Your task to perform on an android device: install app "Pluto TV - Live TV and Movies" Image 0: 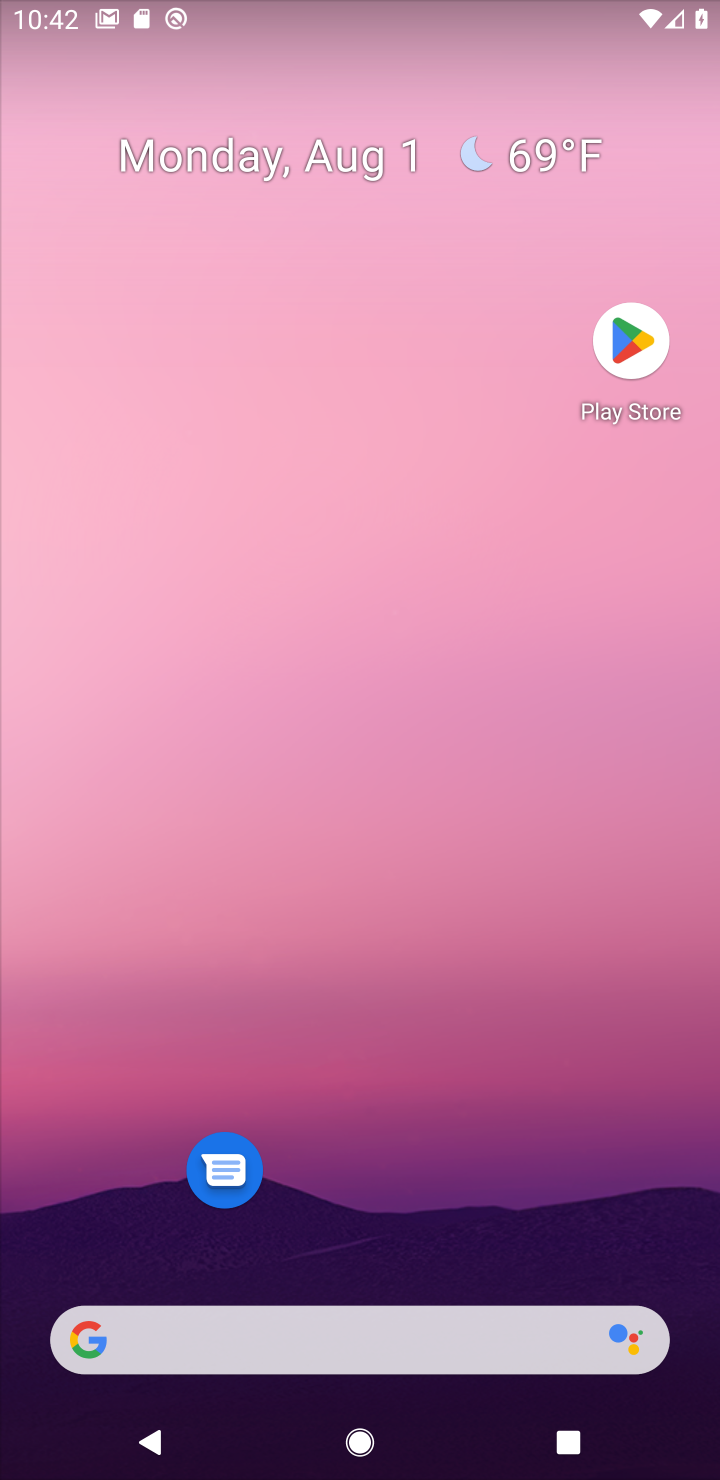
Step 0: drag from (475, 1345) to (337, 368)
Your task to perform on an android device: install app "Pluto TV - Live TV and Movies" Image 1: 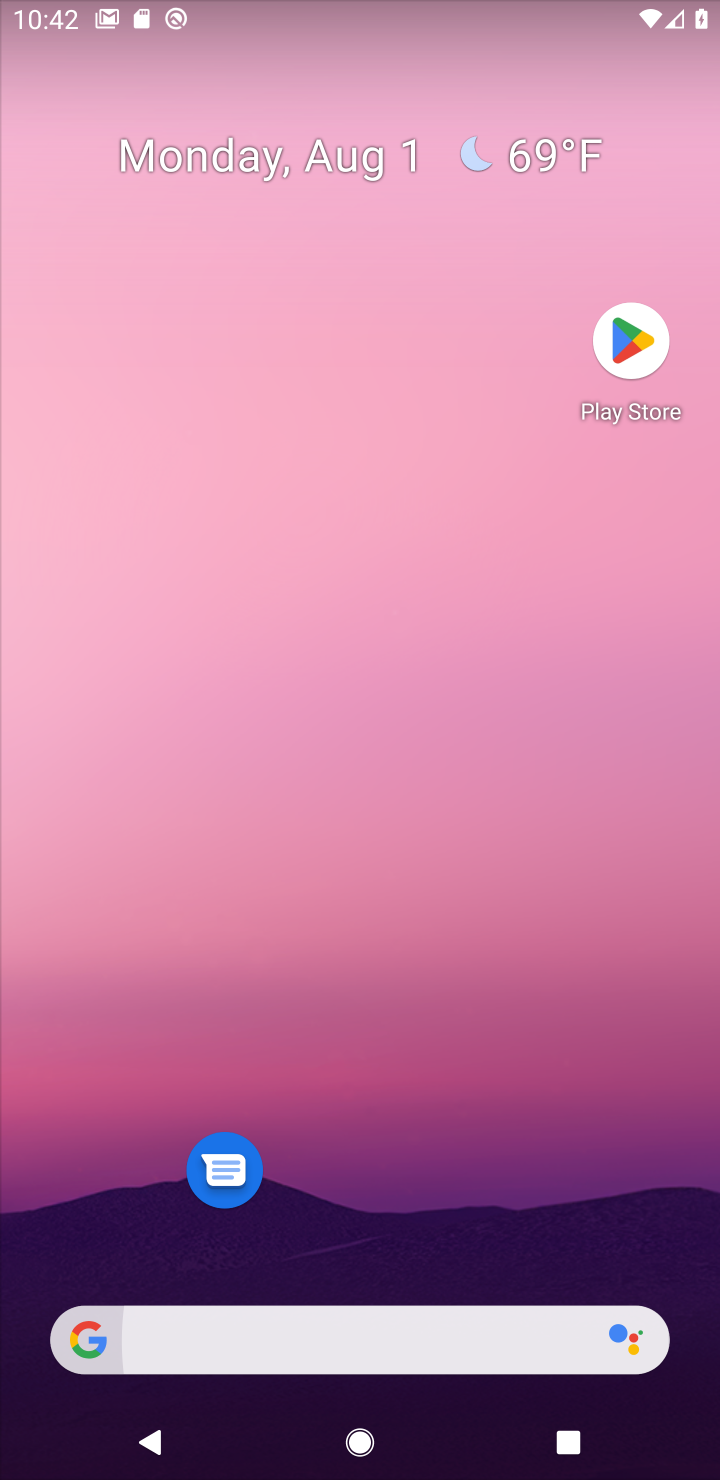
Step 1: drag from (381, 480) to (366, 412)
Your task to perform on an android device: install app "Pluto TV - Live TV and Movies" Image 2: 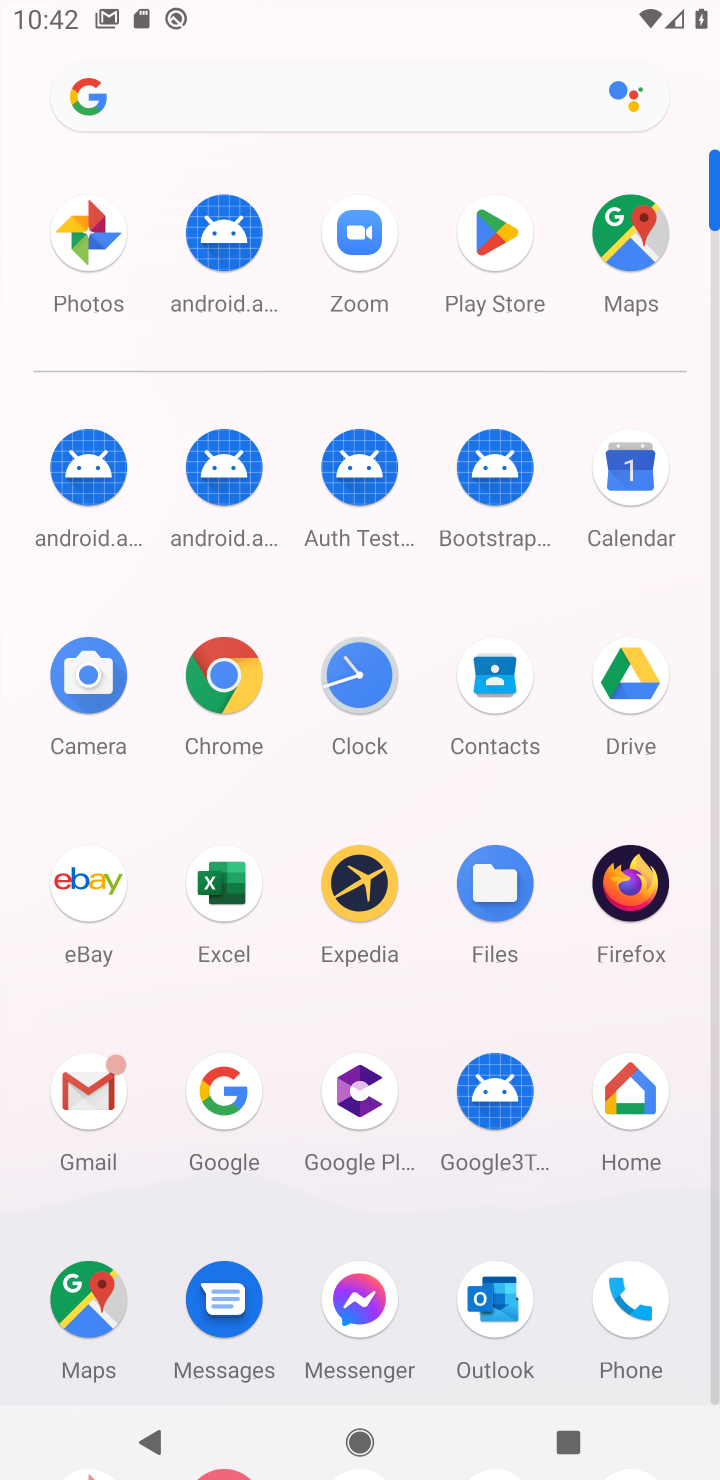
Step 2: click (501, 226)
Your task to perform on an android device: install app "Pluto TV - Live TV and Movies" Image 3: 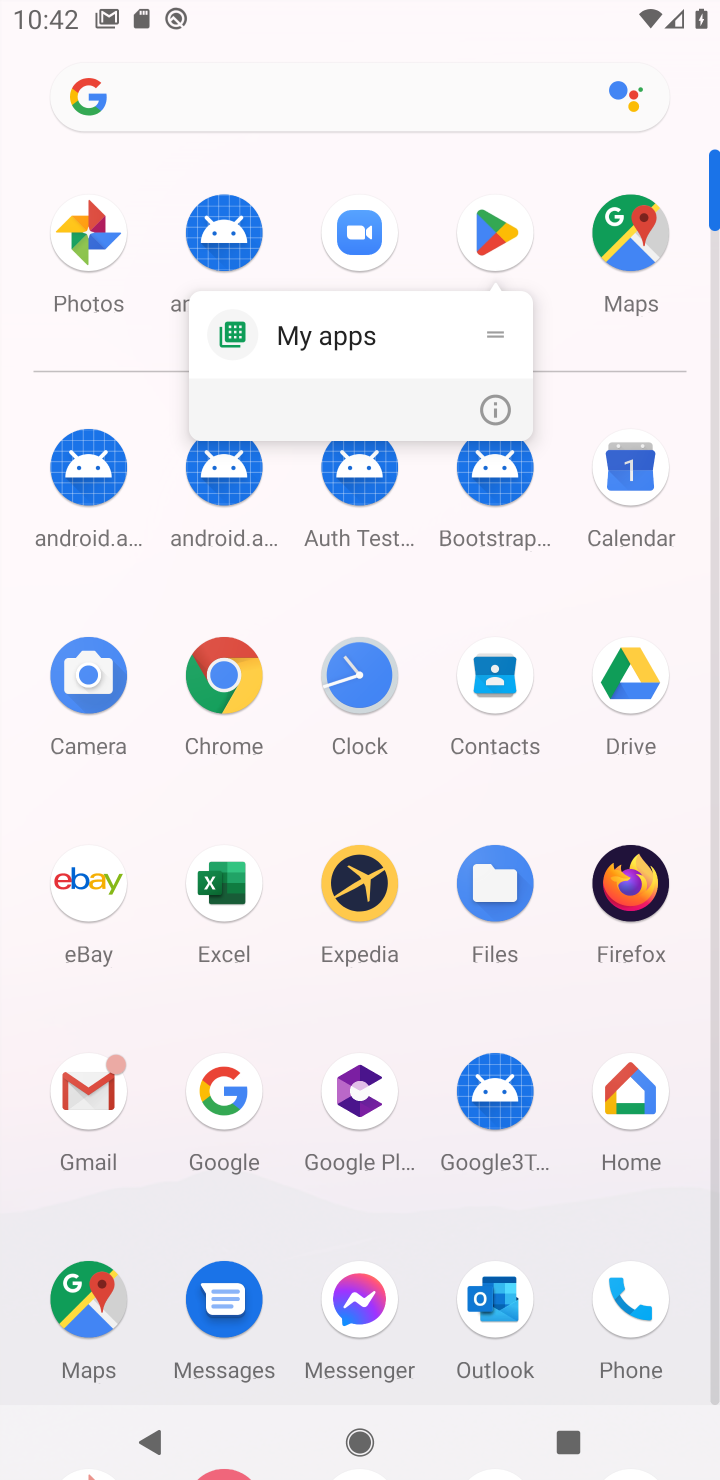
Step 3: click (501, 226)
Your task to perform on an android device: install app "Pluto TV - Live TV and Movies" Image 4: 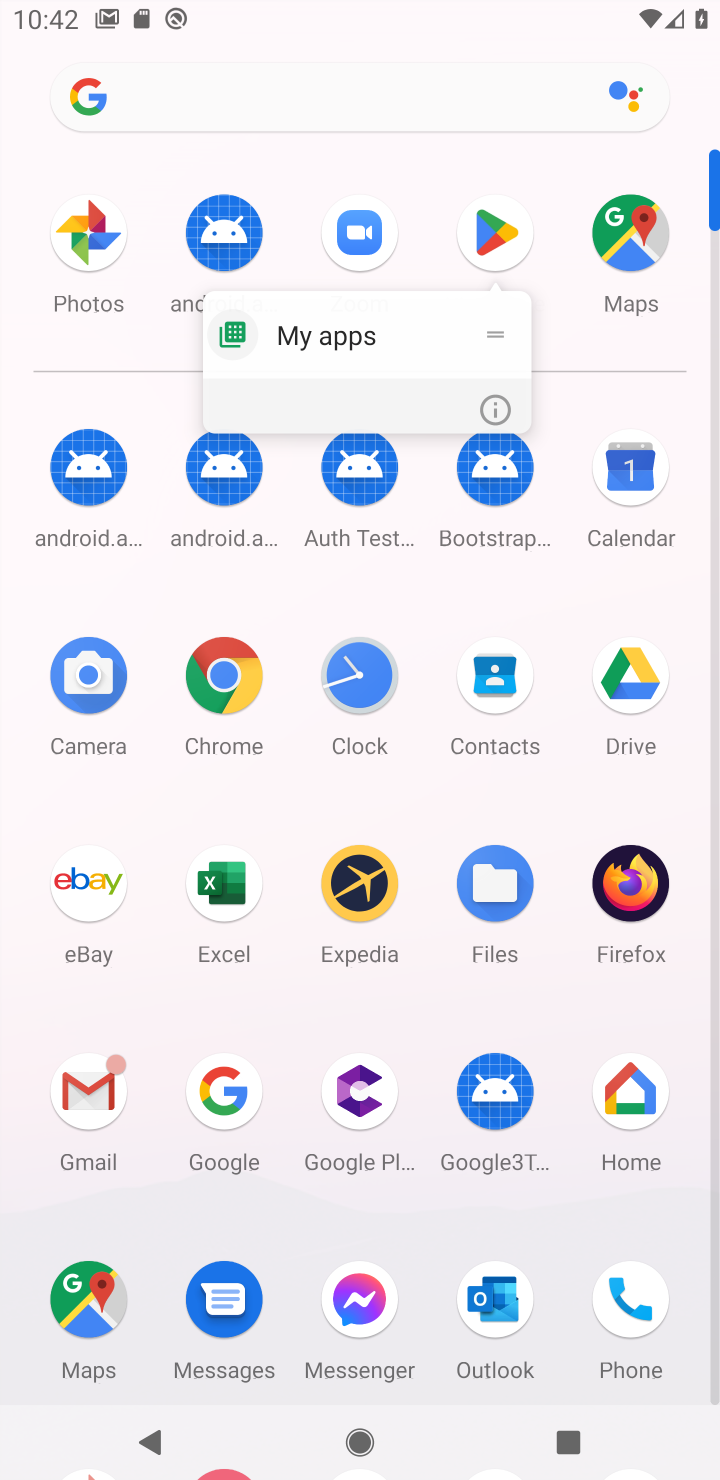
Step 4: click (503, 226)
Your task to perform on an android device: install app "Pluto TV - Live TV and Movies" Image 5: 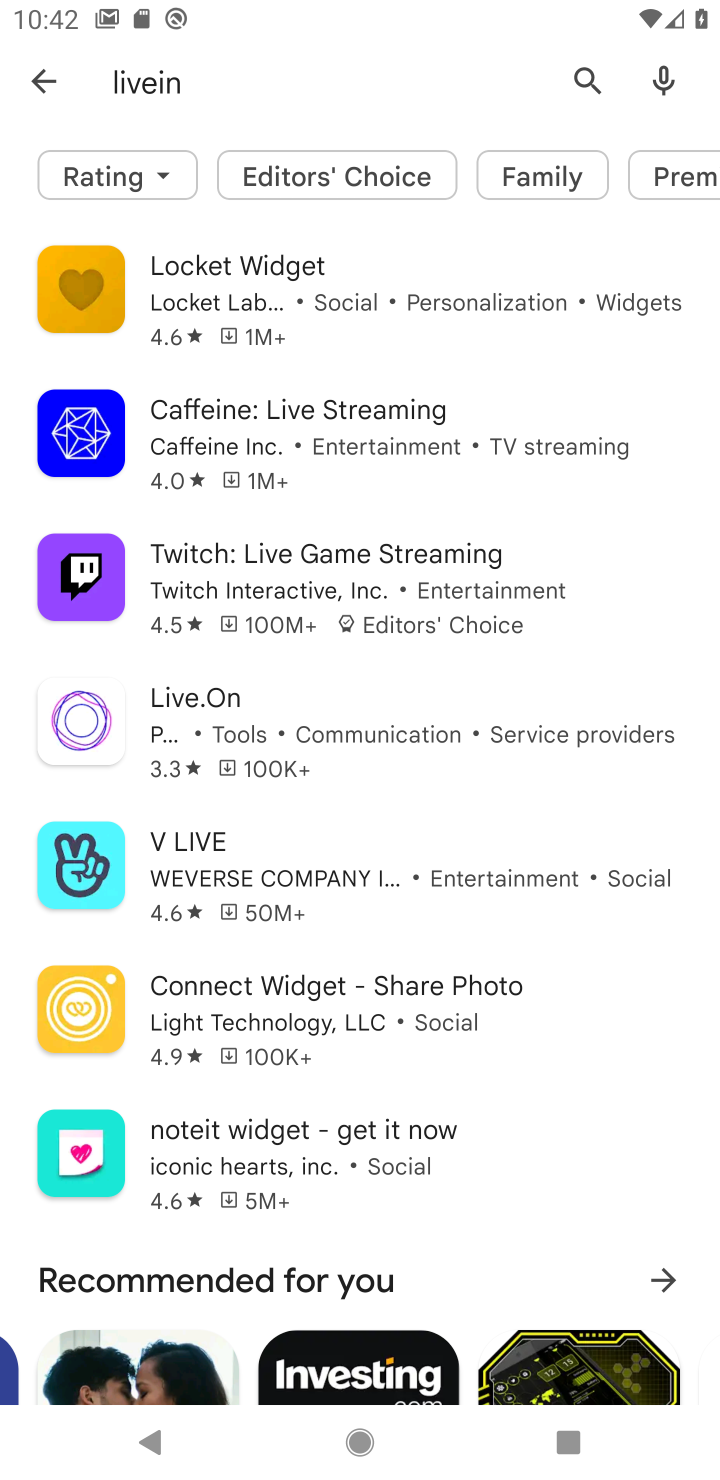
Step 5: click (52, 77)
Your task to perform on an android device: install app "Pluto TV - Live TV and Movies" Image 6: 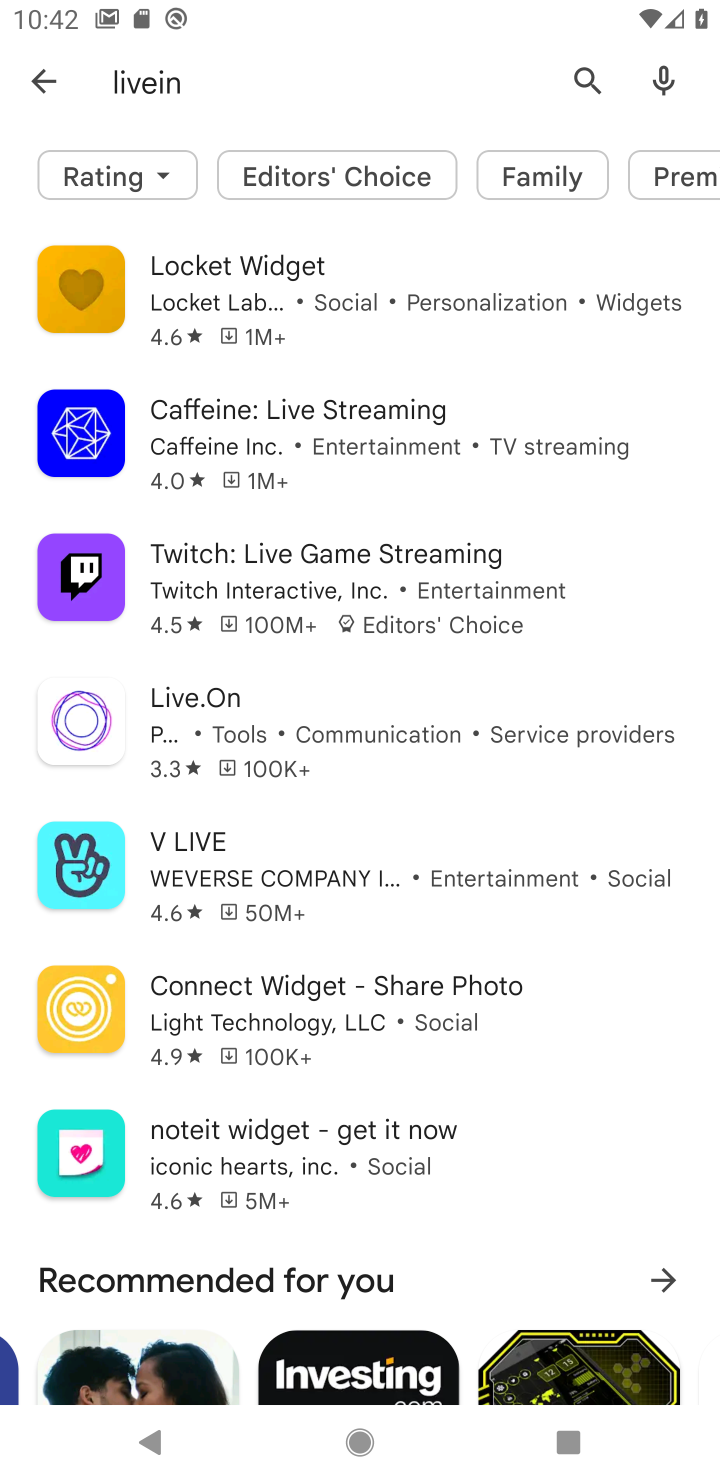
Step 6: click (56, 79)
Your task to perform on an android device: install app "Pluto TV - Live TV and Movies" Image 7: 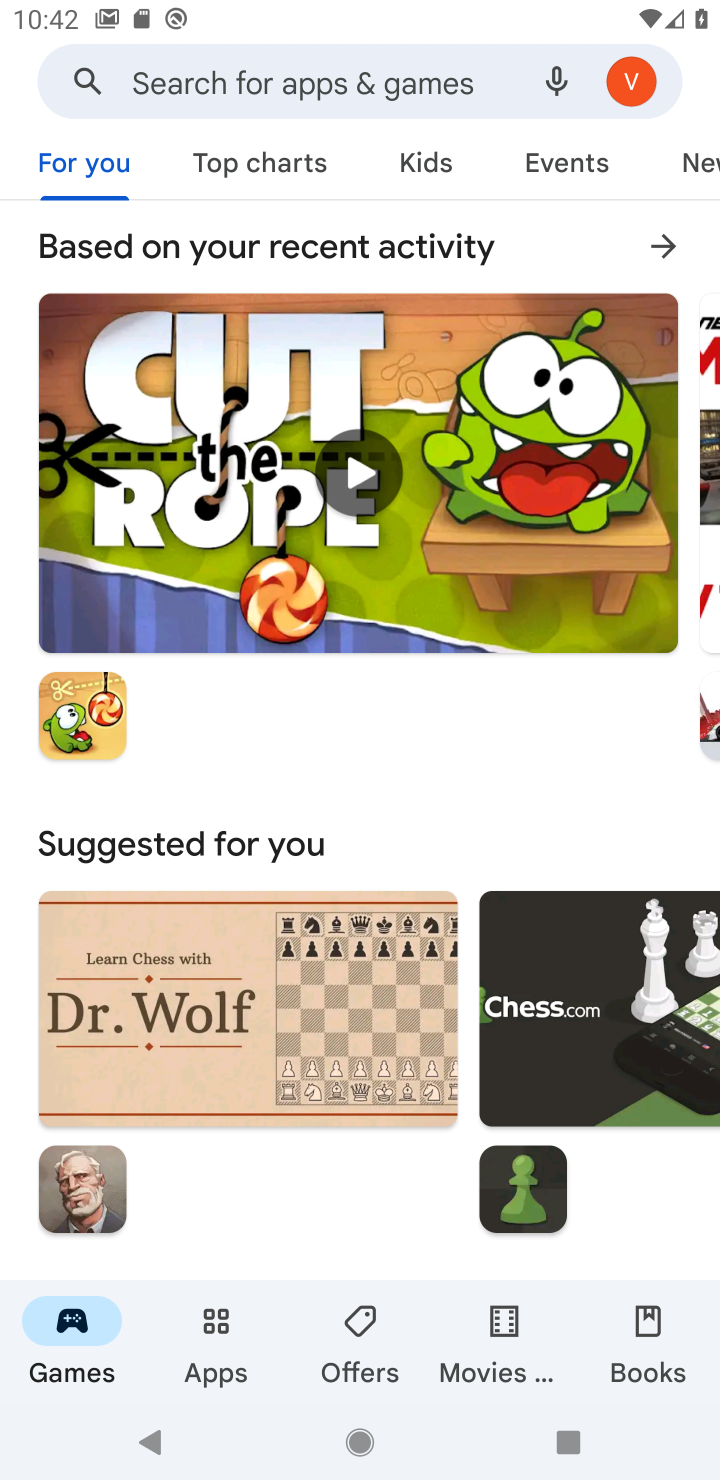
Step 7: click (152, 58)
Your task to perform on an android device: install app "Pluto TV - Live TV and Movies" Image 8: 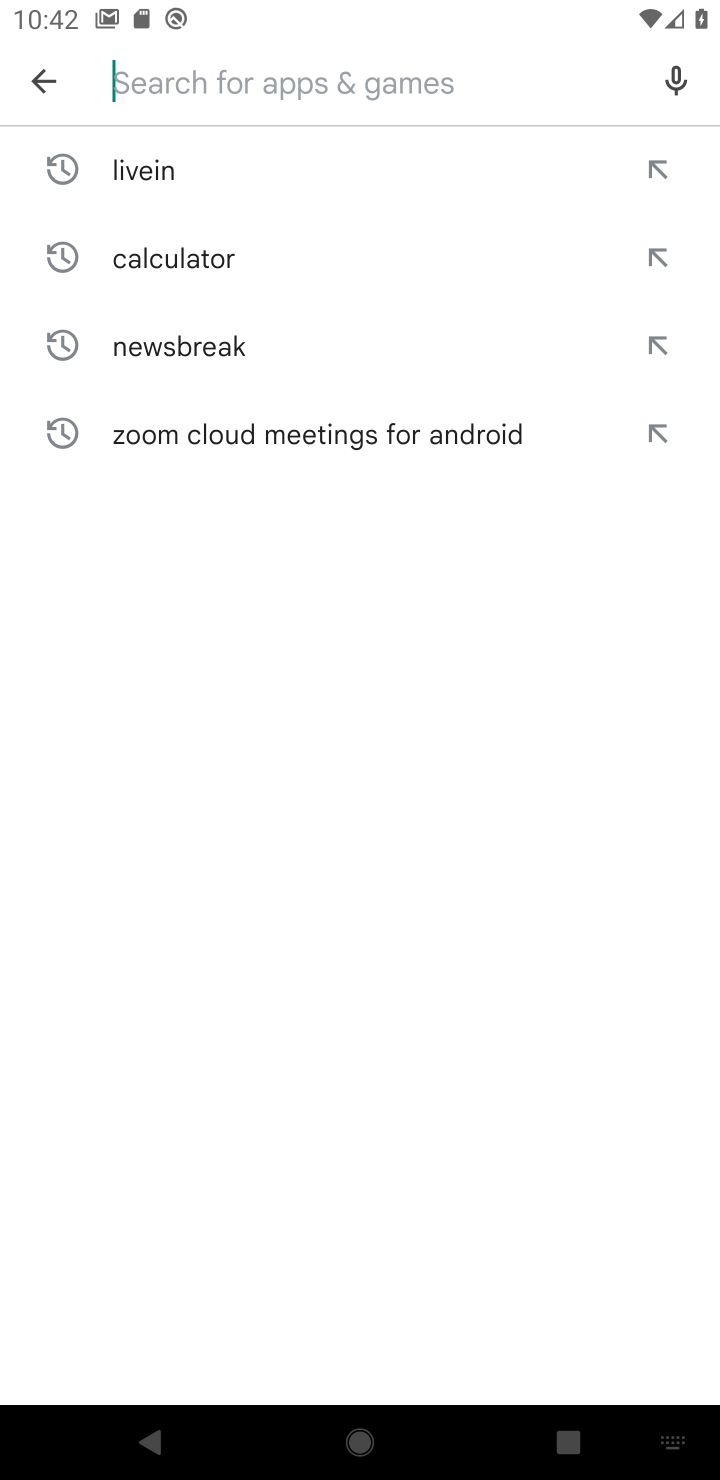
Step 8: type "pluto tv"
Your task to perform on an android device: install app "Pluto TV - Live TV and Movies" Image 9: 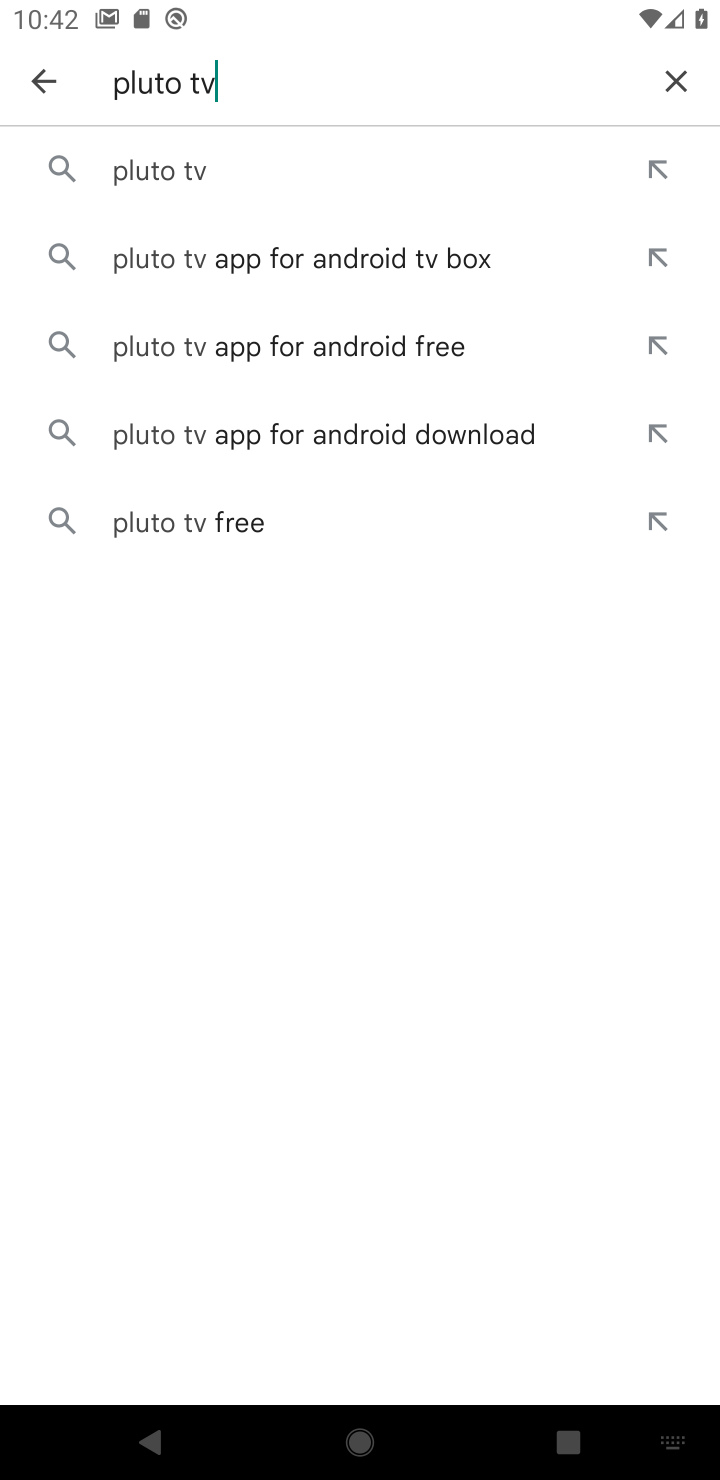
Step 9: click (158, 167)
Your task to perform on an android device: install app "Pluto TV - Live TV and Movies" Image 10: 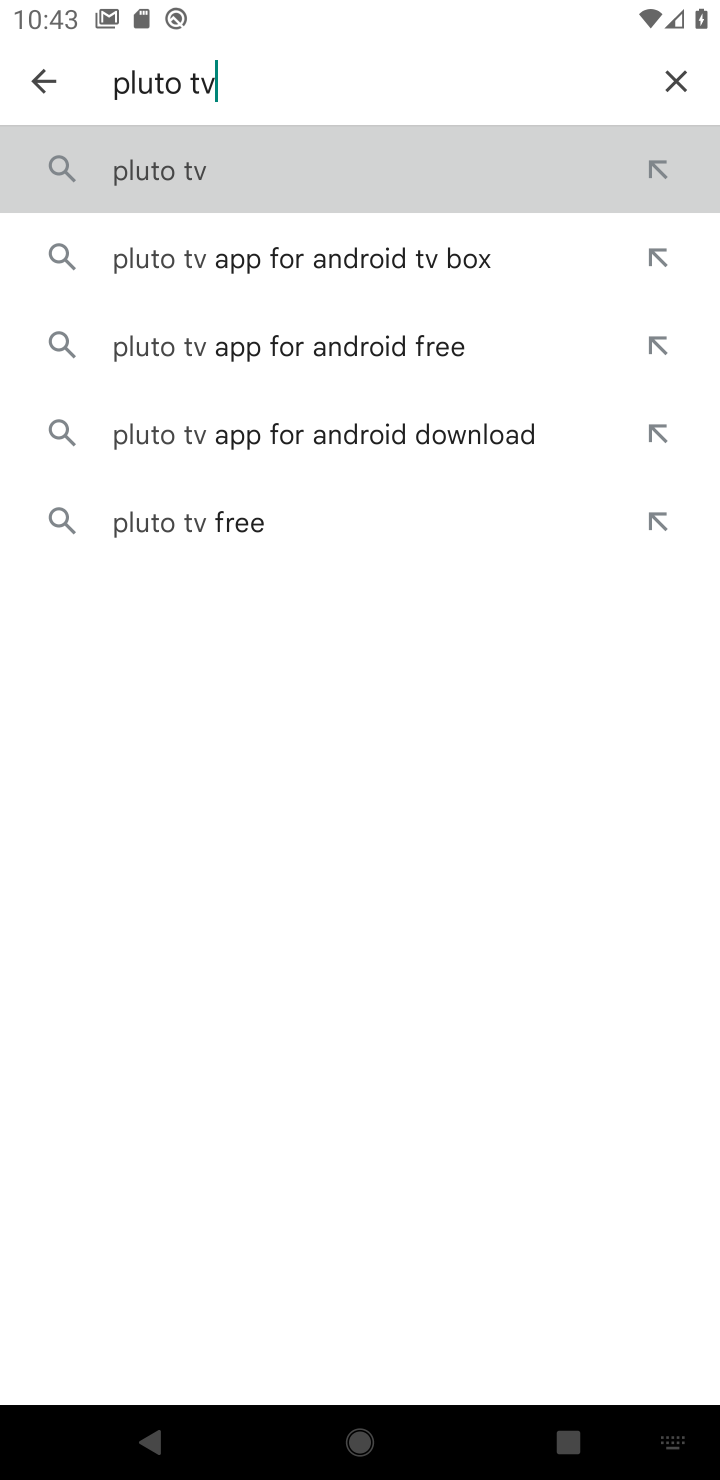
Step 10: click (162, 169)
Your task to perform on an android device: install app "Pluto TV - Live TV and Movies" Image 11: 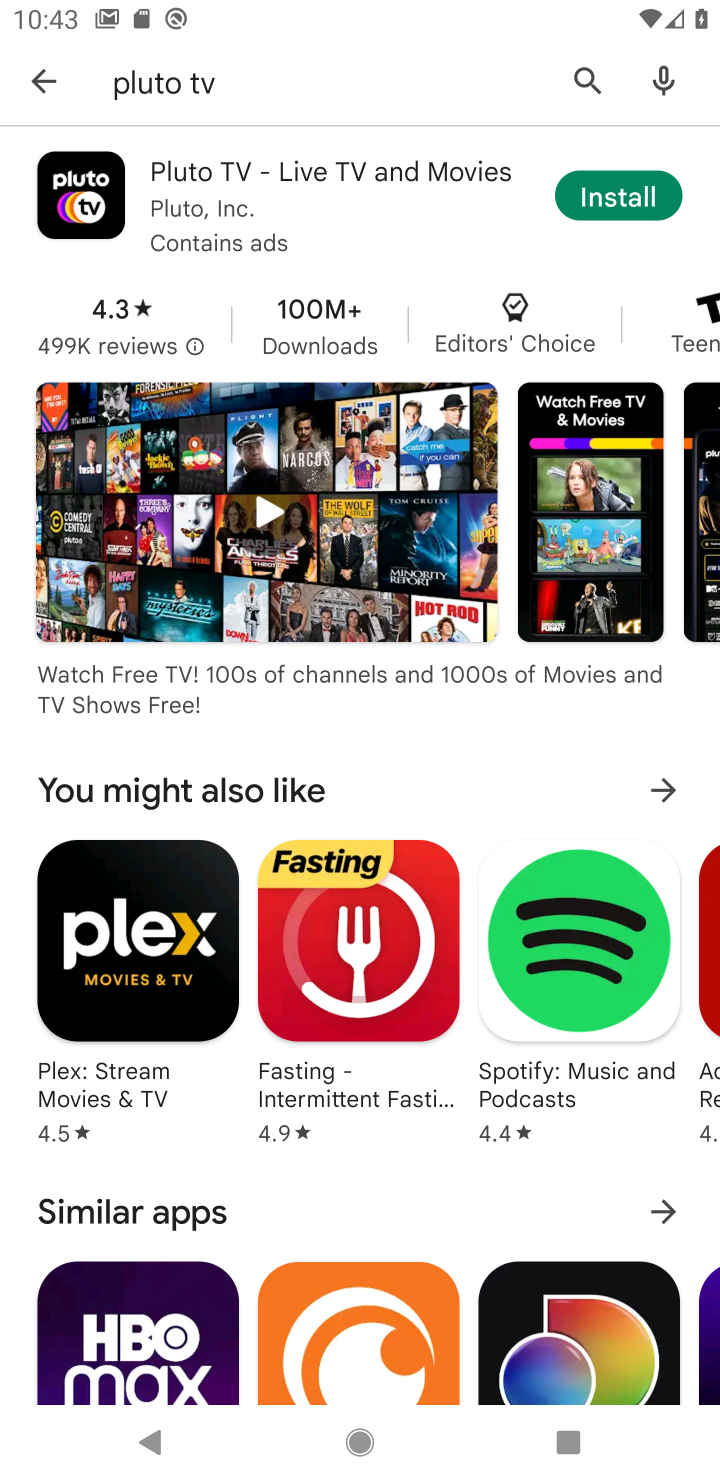
Step 11: click (637, 200)
Your task to perform on an android device: install app "Pluto TV - Live TV and Movies" Image 12: 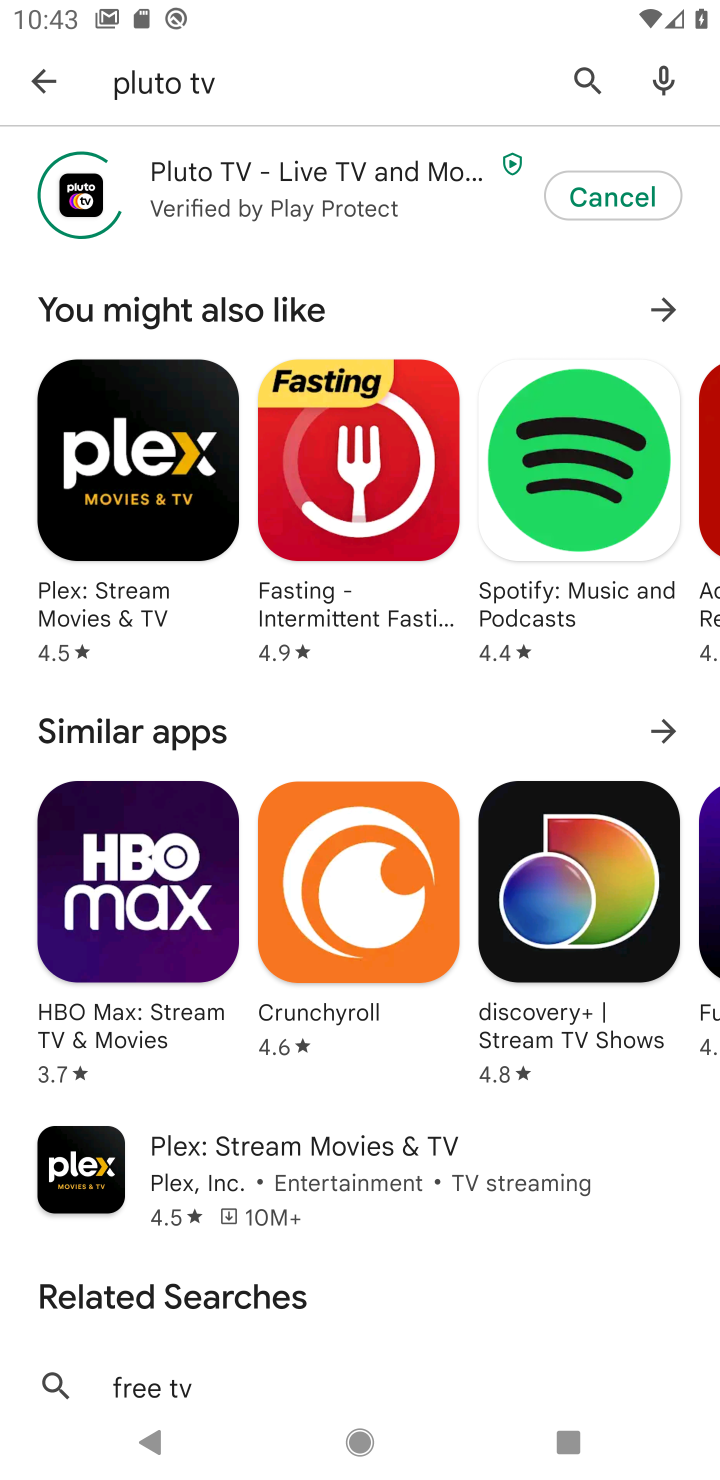
Step 12: click (641, 204)
Your task to perform on an android device: install app "Pluto TV - Live TV and Movies" Image 13: 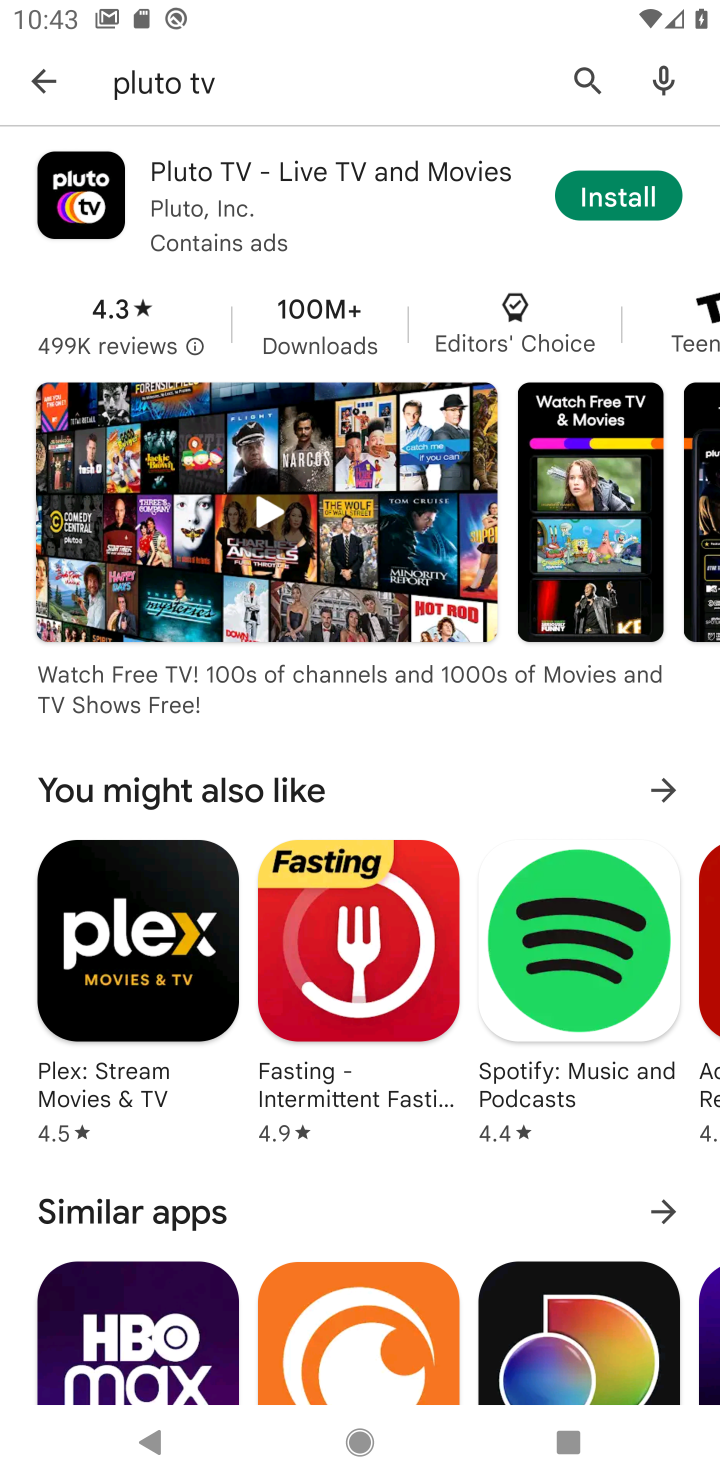
Step 13: click (606, 180)
Your task to perform on an android device: install app "Pluto TV - Live TV and Movies" Image 14: 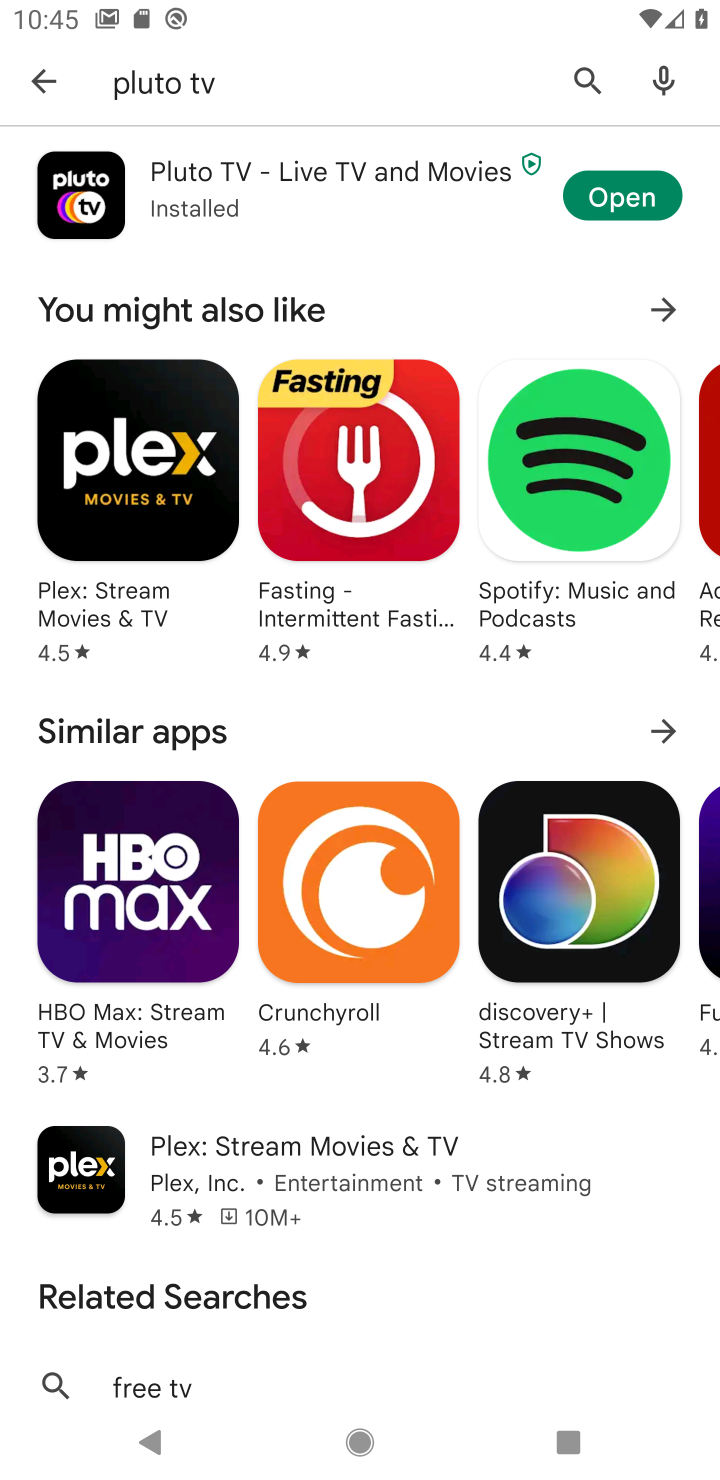
Step 14: click (658, 224)
Your task to perform on an android device: install app "Pluto TV - Live TV and Movies" Image 15: 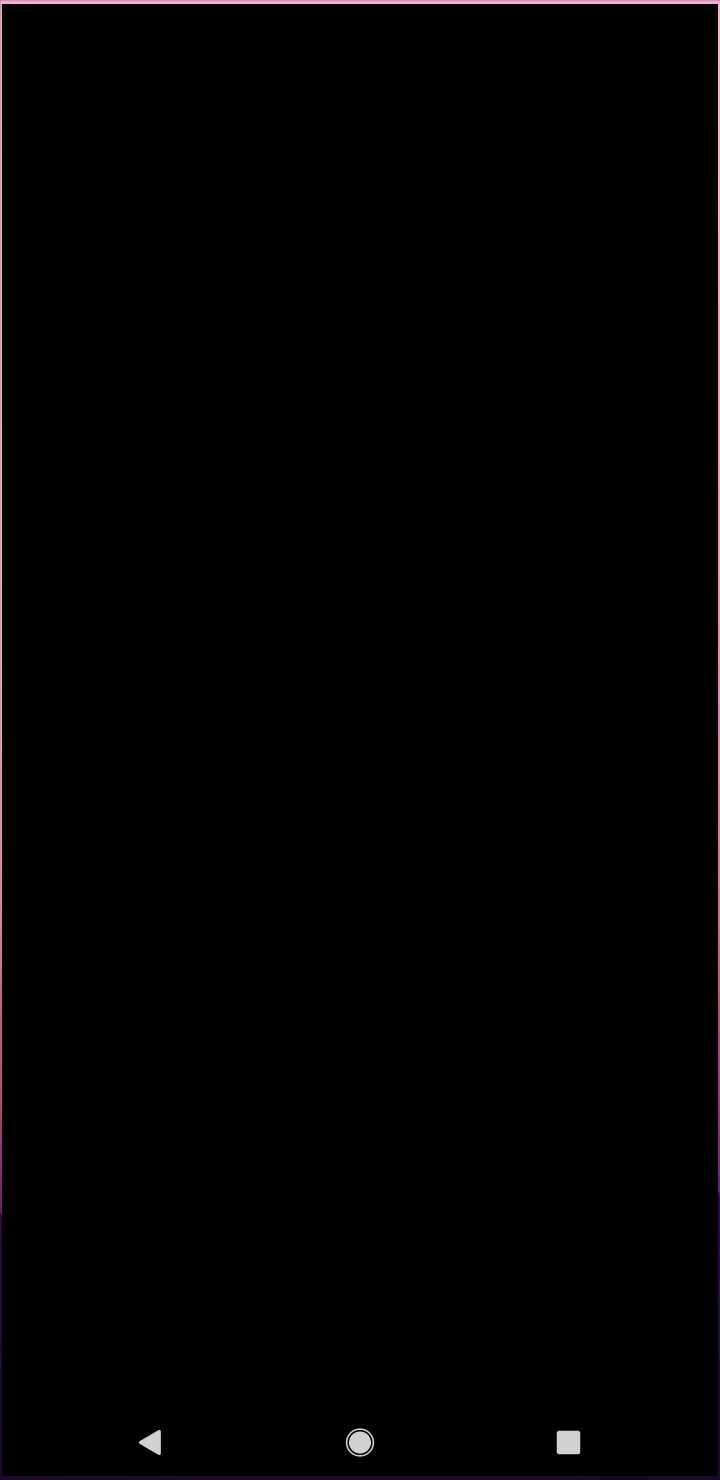
Step 15: click (647, 209)
Your task to perform on an android device: install app "Pluto TV - Live TV and Movies" Image 16: 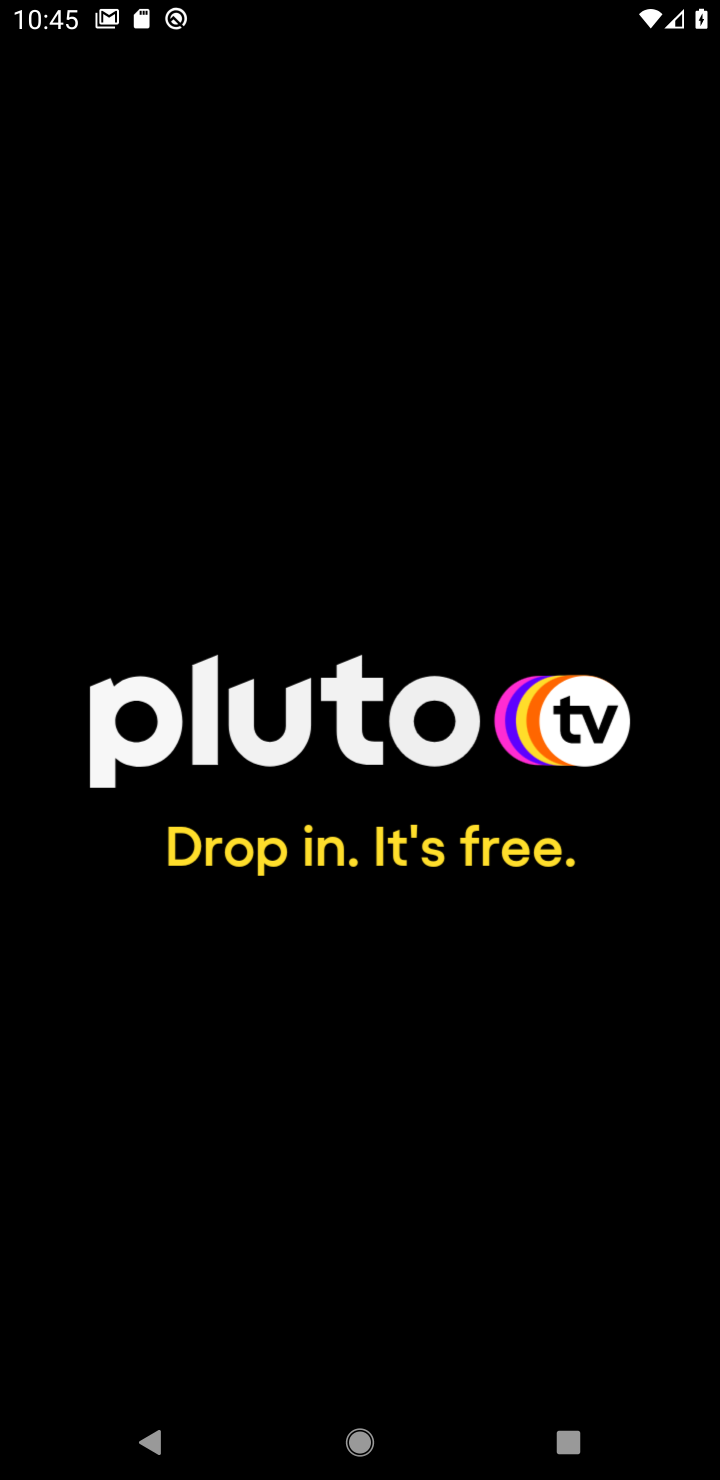
Step 16: press back button
Your task to perform on an android device: install app "Pluto TV - Live TV and Movies" Image 17: 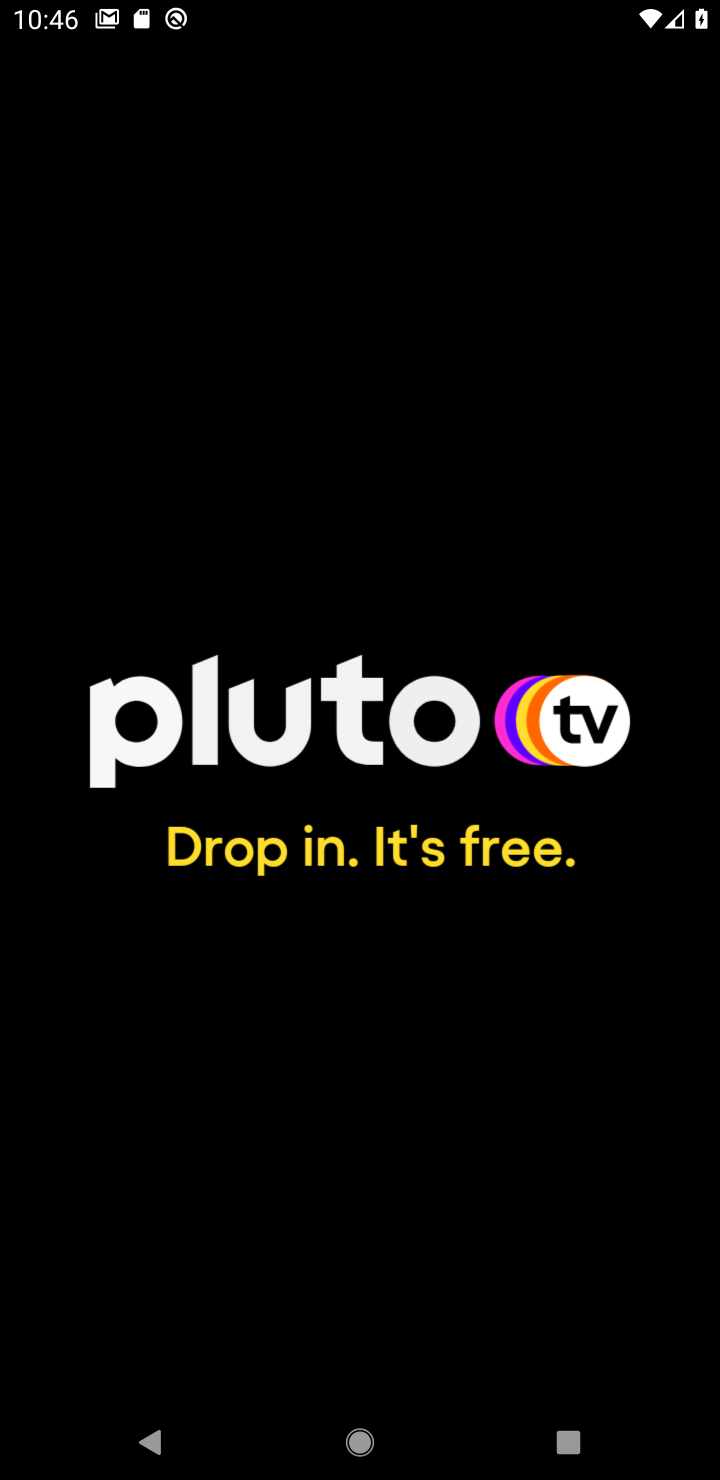
Step 17: press back button
Your task to perform on an android device: install app "Pluto TV - Live TV and Movies" Image 18: 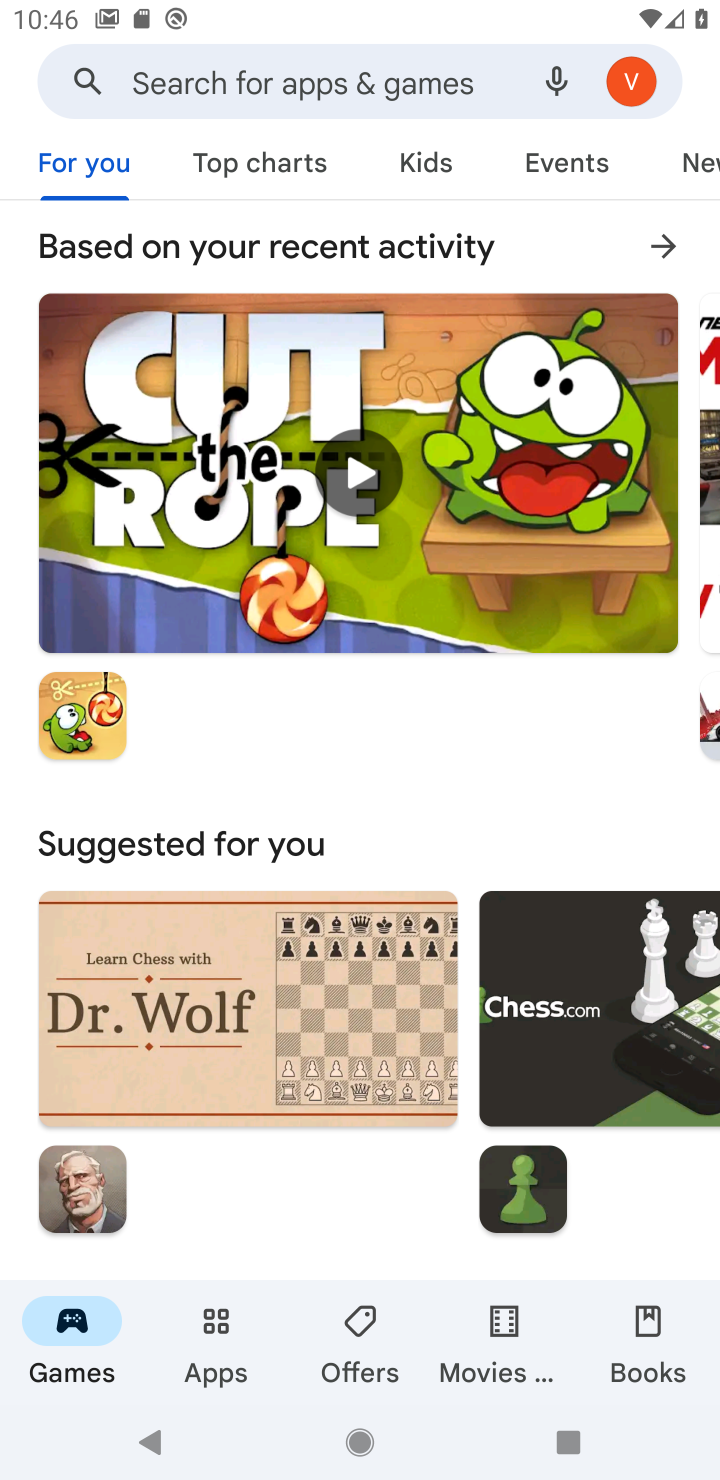
Step 18: press home button
Your task to perform on an android device: install app "Pluto TV - Live TV and Movies" Image 19: 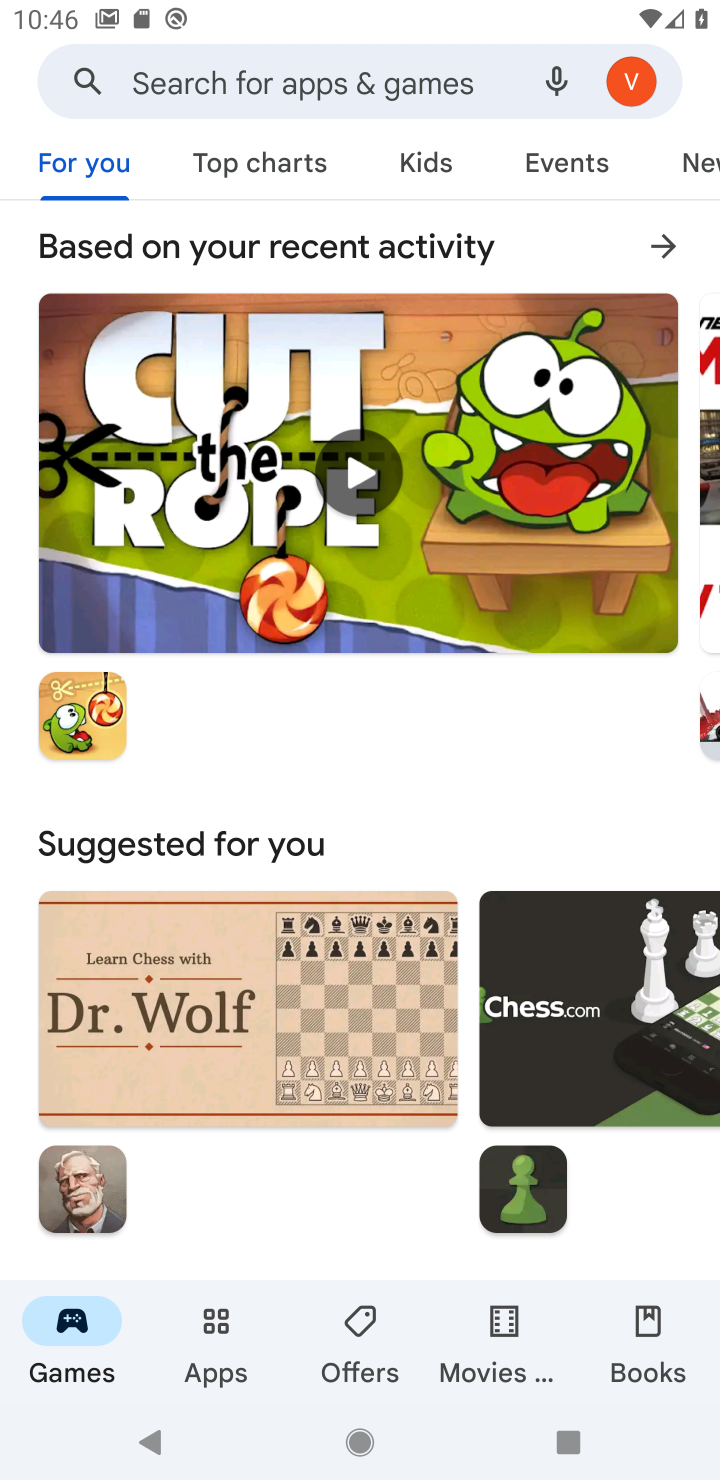
Step 19: click (213, 90)
Your task to perform on an android device: install app "Pluto TV - Live TV and Movies" Image 20: 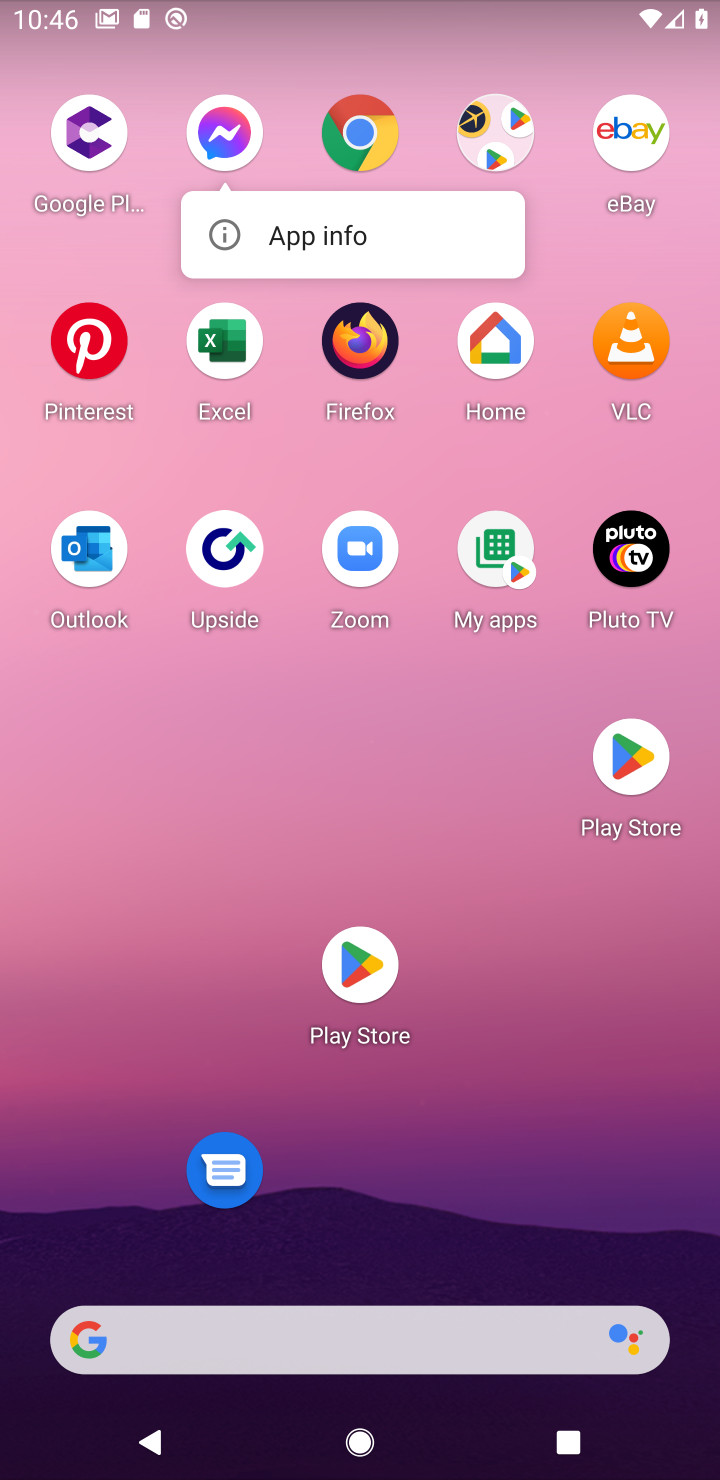
Step 20: click (374, 943)
Your task to perform on an android device: install app "Pluto TV - Live TV and Movies" Image 21: 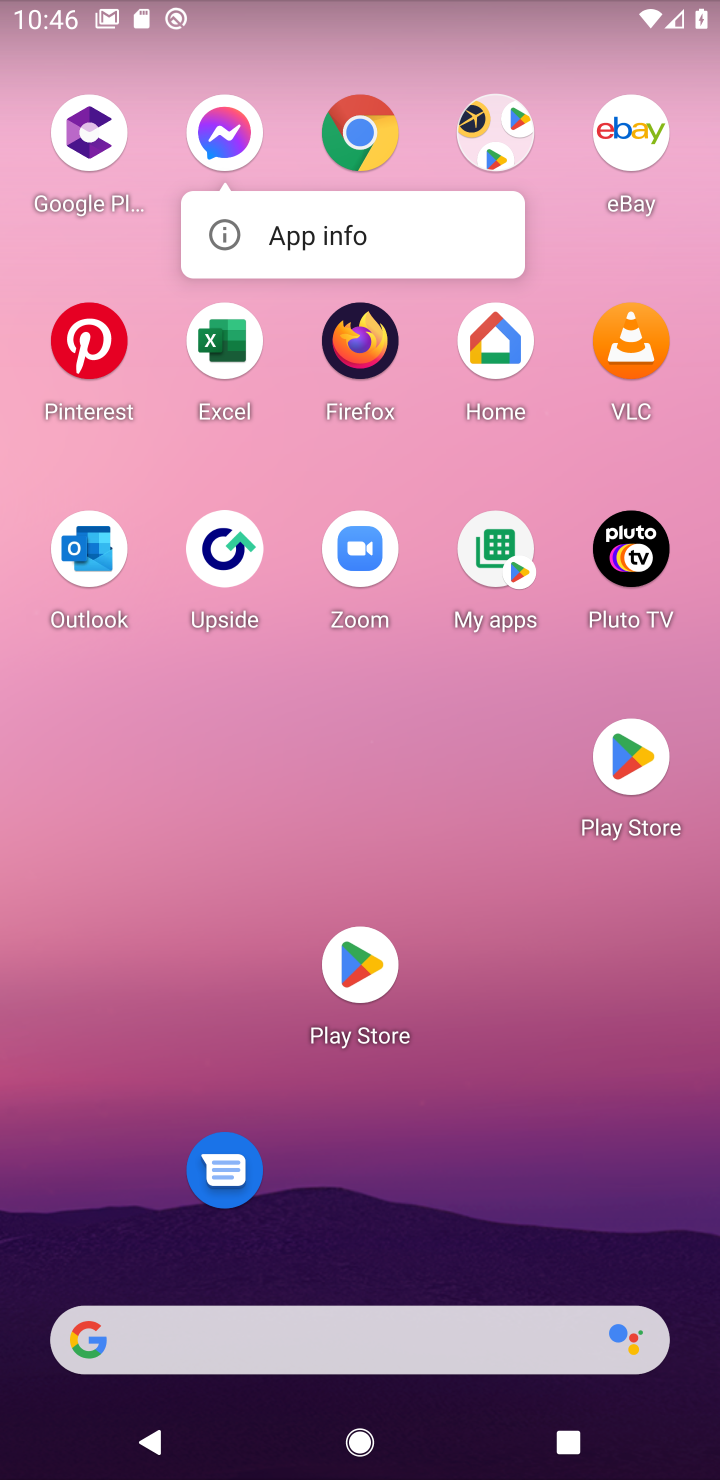
Step 21: click (396, 936)
Your task to perform on an android device: install app "Pluto TV - Live TV and Movies" Image 22: 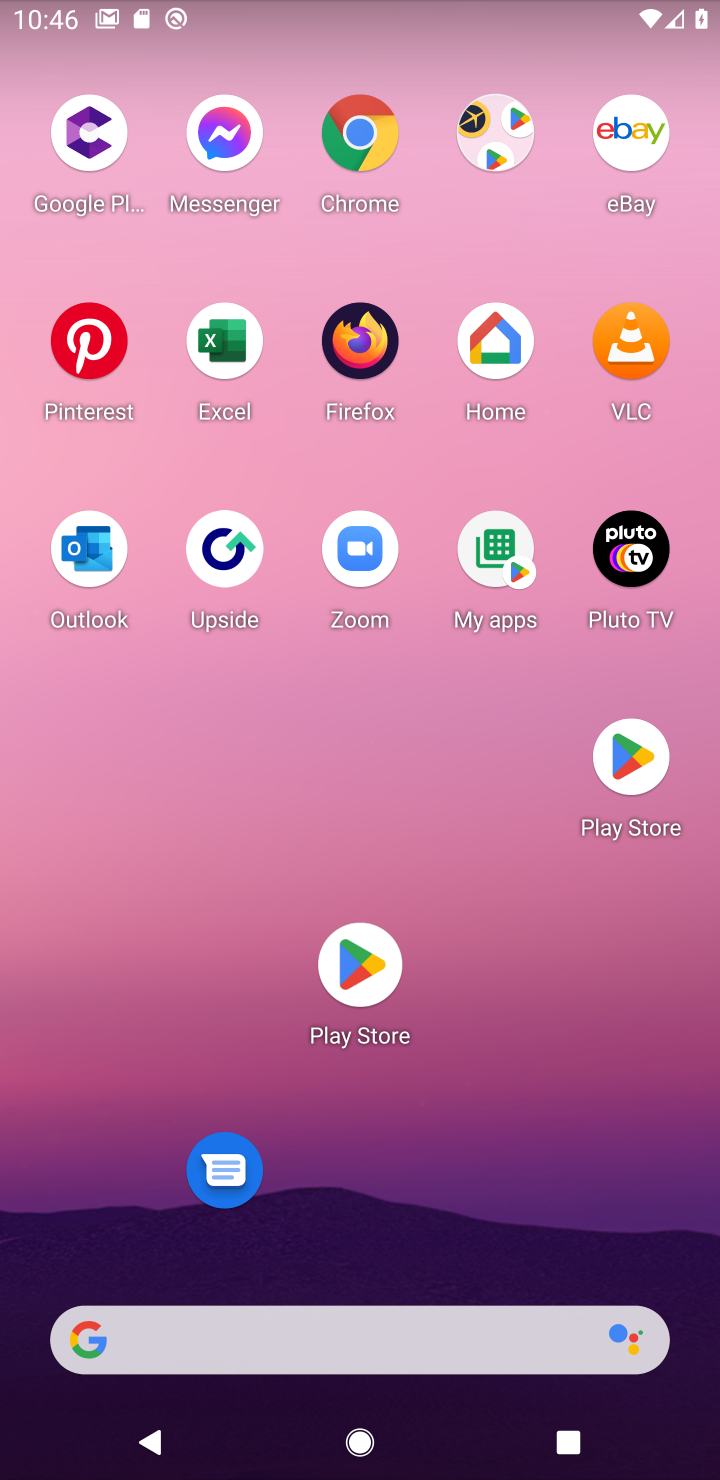
Step 22: click (371, 953)
Your task to perform on an android device: install app "Pluto TV - Live TV and Movies" Image 23: 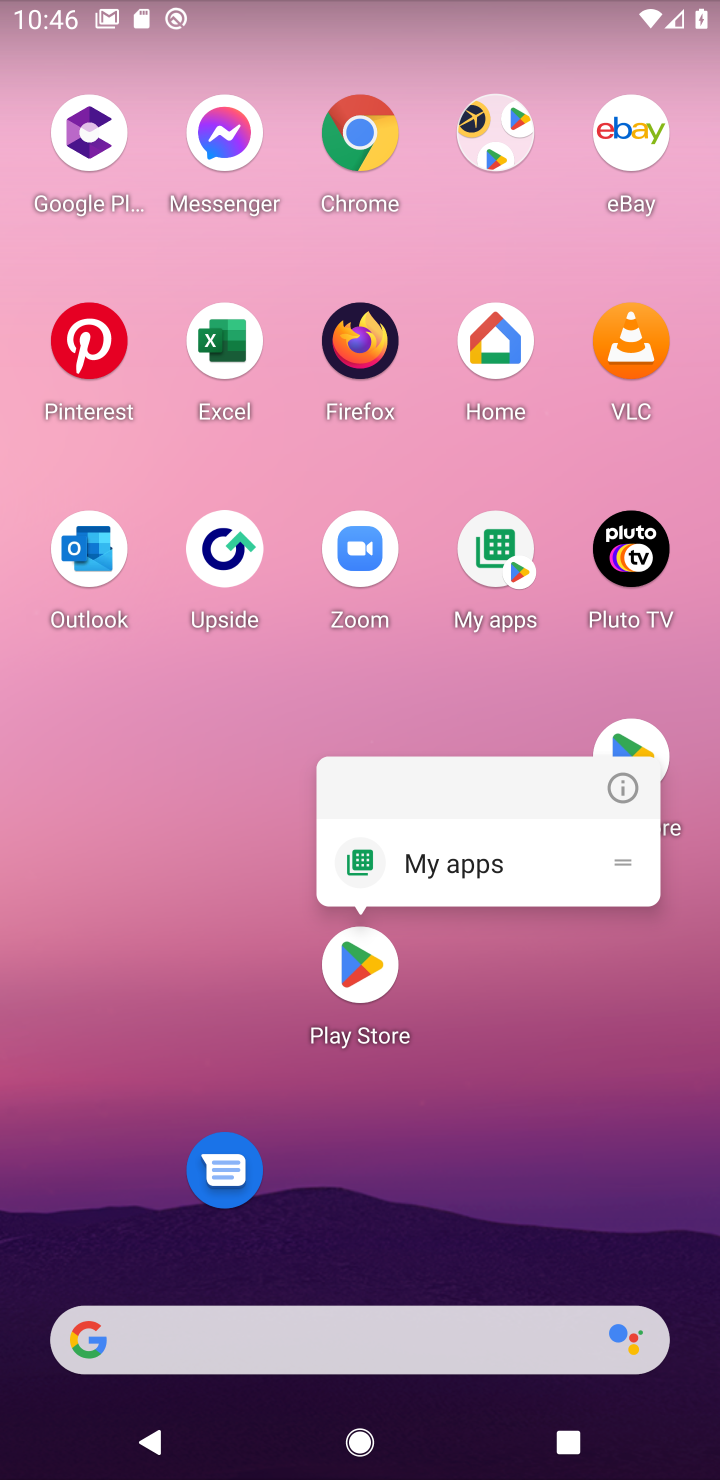
Step 23: click (461, 835)
Your task to perform on an android device: install app "Pluto TV - Live TV and Movies" Image 24: 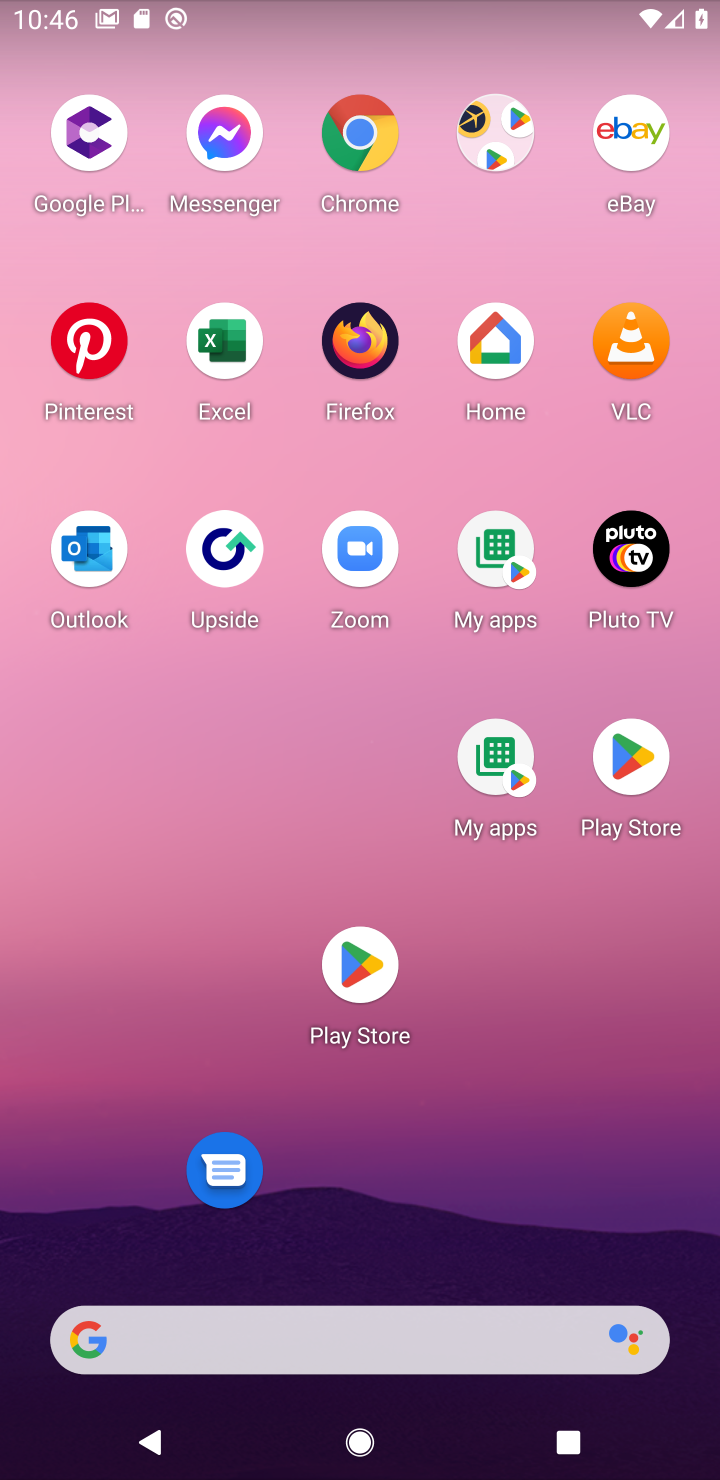
Step 24: click (368, 959)
Your task to perform on an android device: install app "Pluto TV - Live TV and Movies" Image 25: 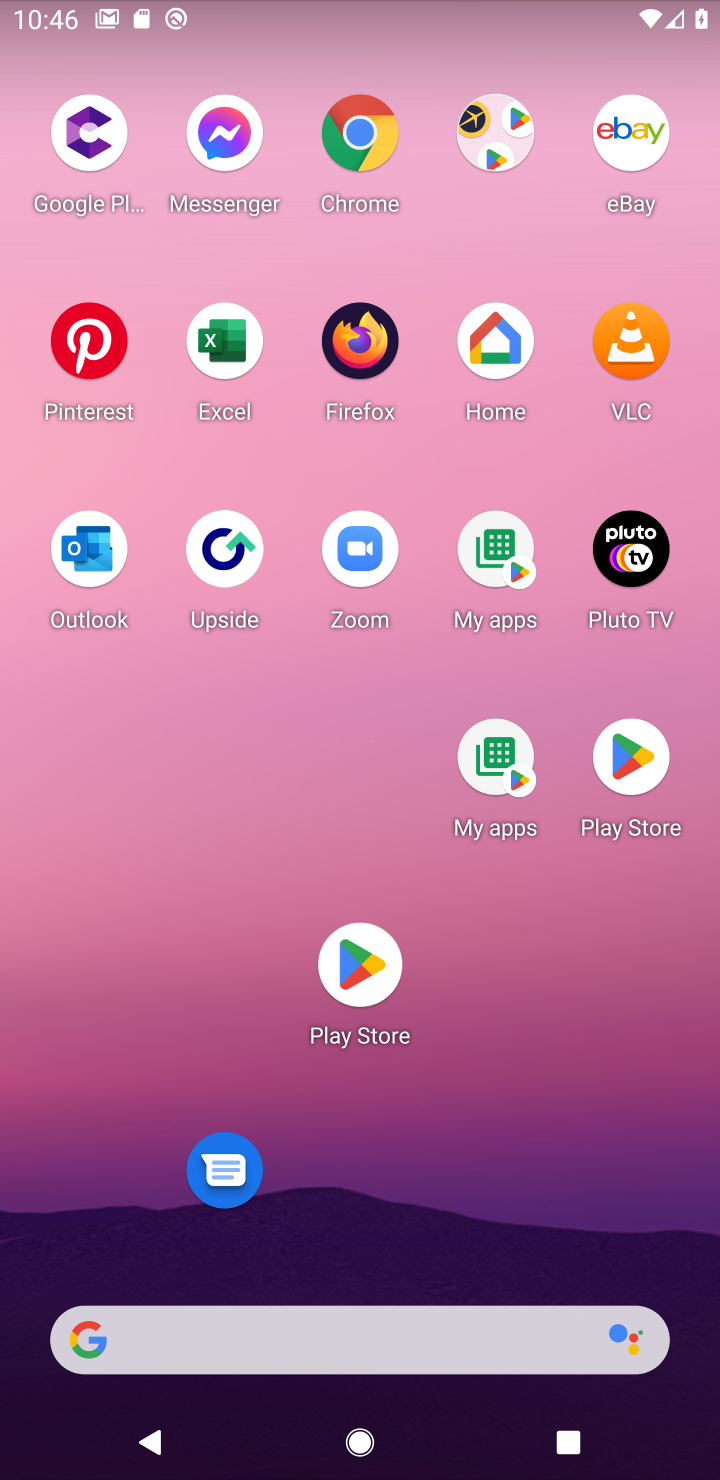
Step 25: click (361, 952)
Your task to perform on an android device: install app "Pluto TV - Live TV and Movies" Image 26: 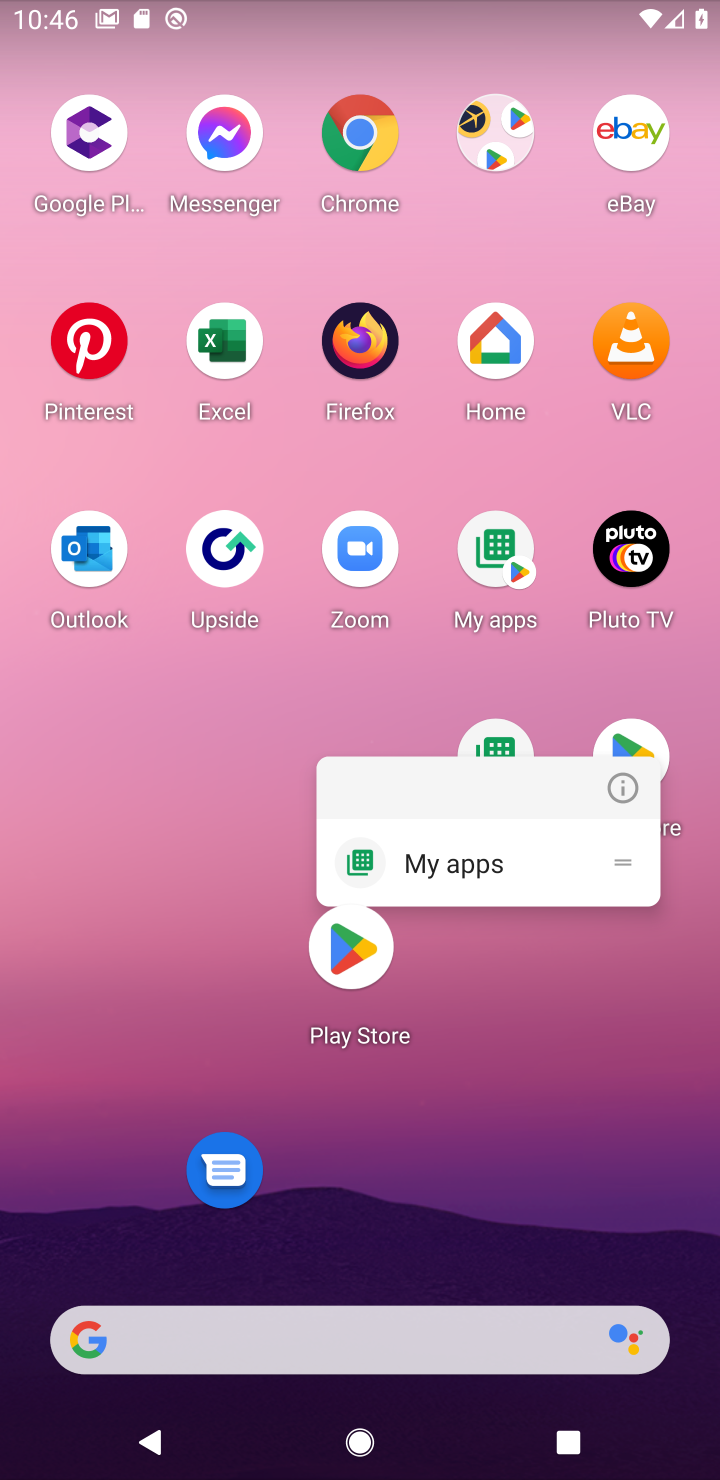
Step 26: click (352, 934)
Your task to perform on an android device: install app "Pluto TV - Live TV and Movies" Image 27: 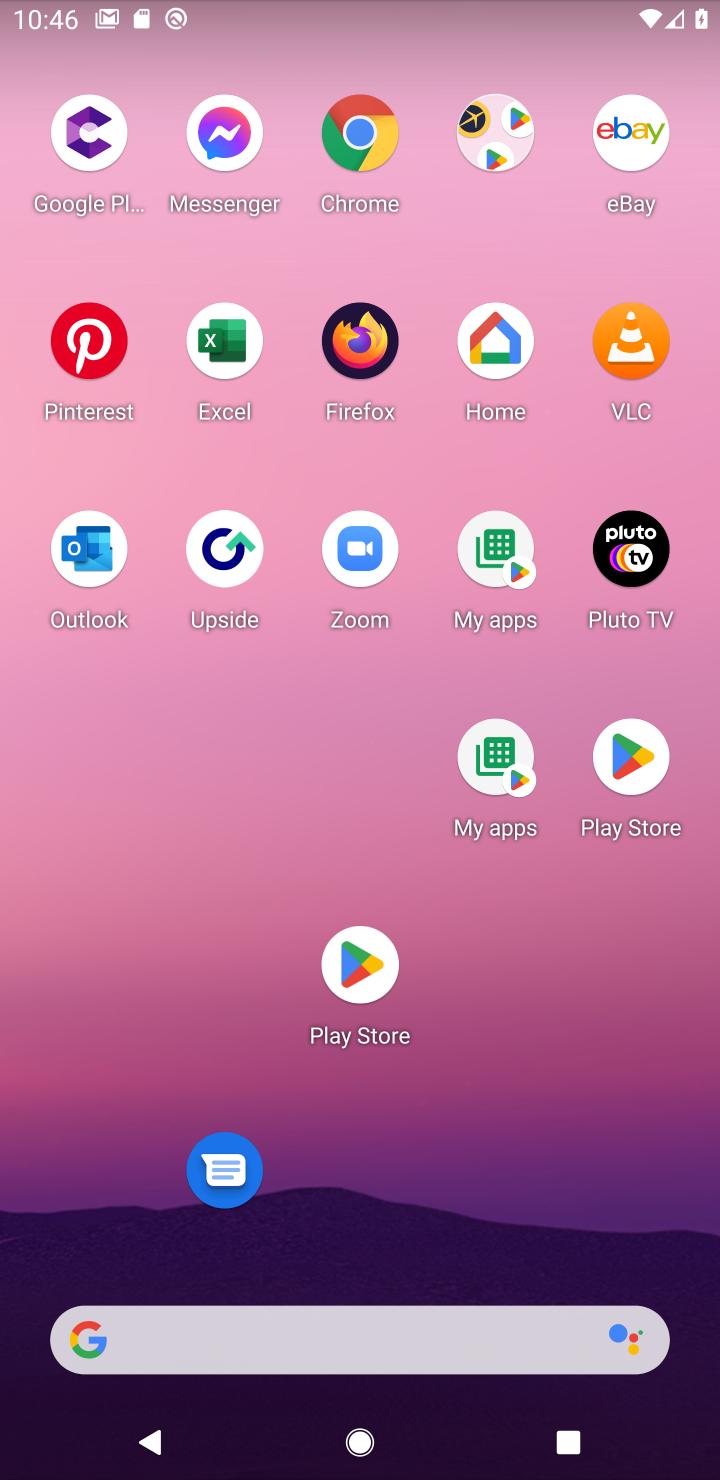
Step 27: click (354, 934)
Your task to perform on an android device: install app "Pluto TV - Live TV and Movies" Image 28: 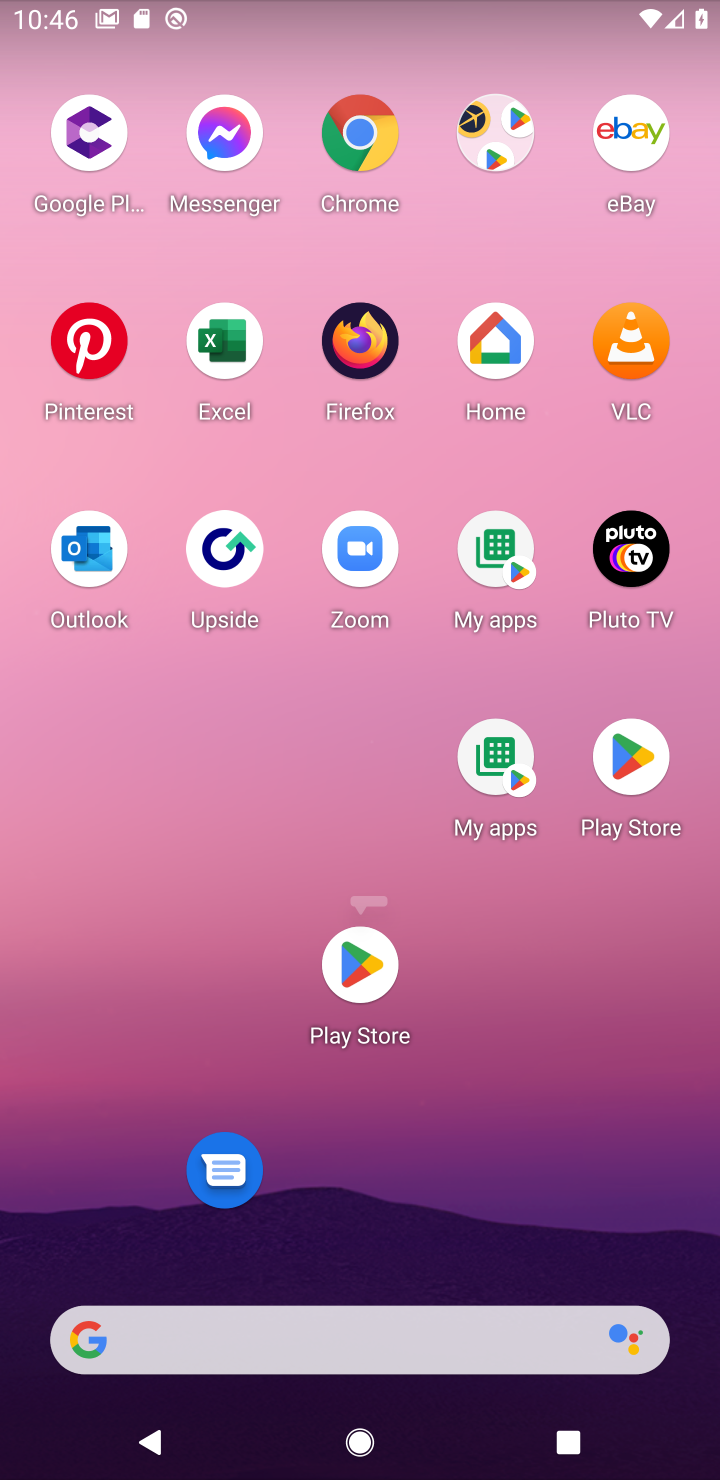
Step 28: click (362, 943)
Your task to perform on an android device: install app "Pluto TV - Live TV and Movies" Image 29: 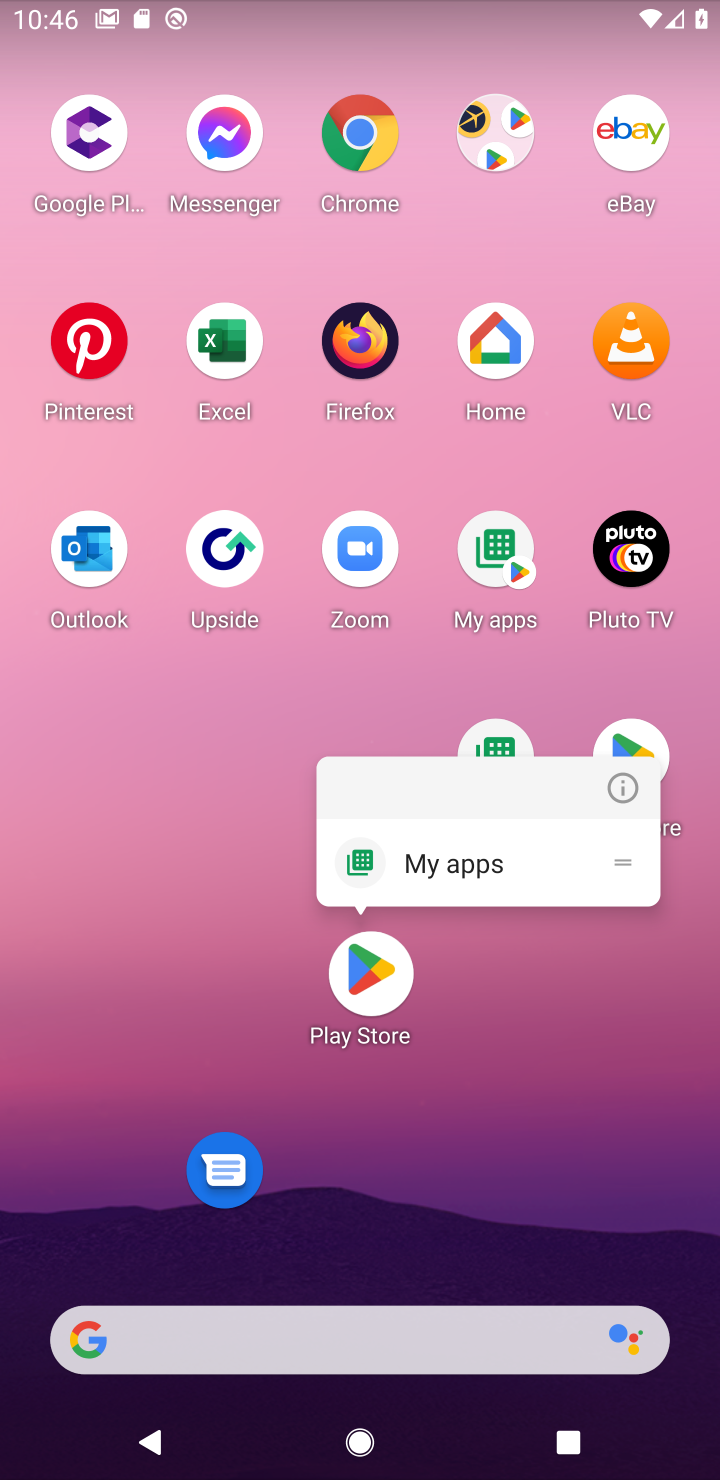
Step 29: click (434, 875)
Your task to perform on an android device: install app "Pluto TV - Live TV and Movies" Image 30: 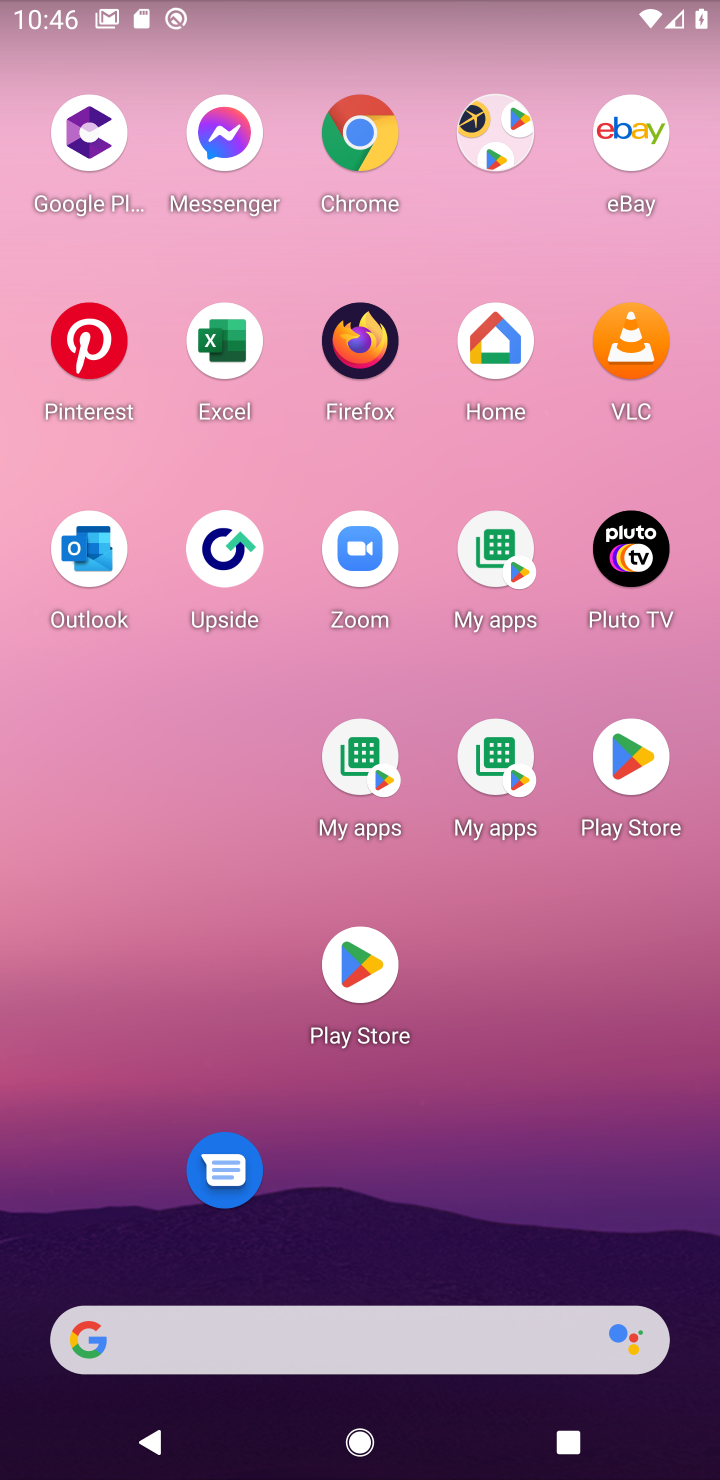
Step 30: click (362, 934)
Your task to perform on an android device: install app "Pluto TV - Live TV and Movies" Image 31: 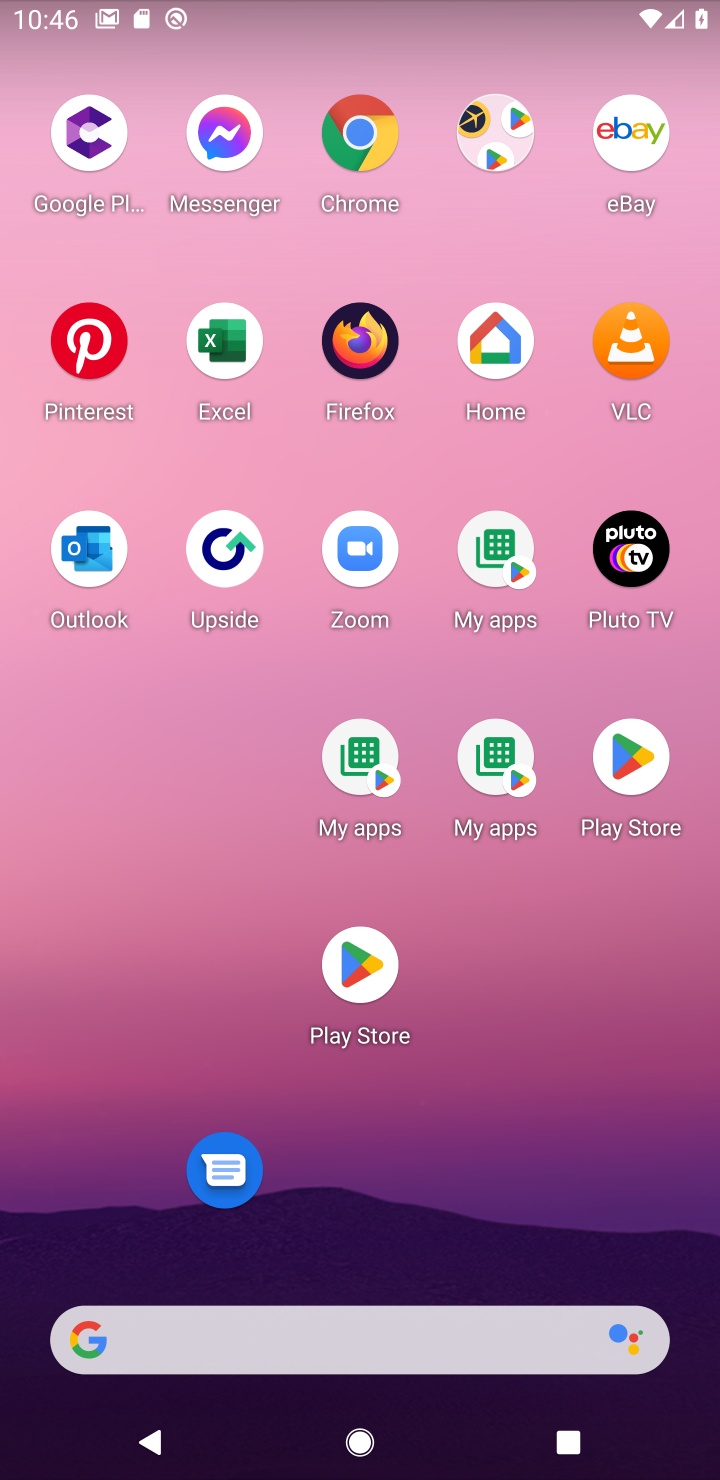
Step 31: click (363, 971)
Your task to perform on an android device: install app "Pluto TV - Live TV and Movies" Image 32: 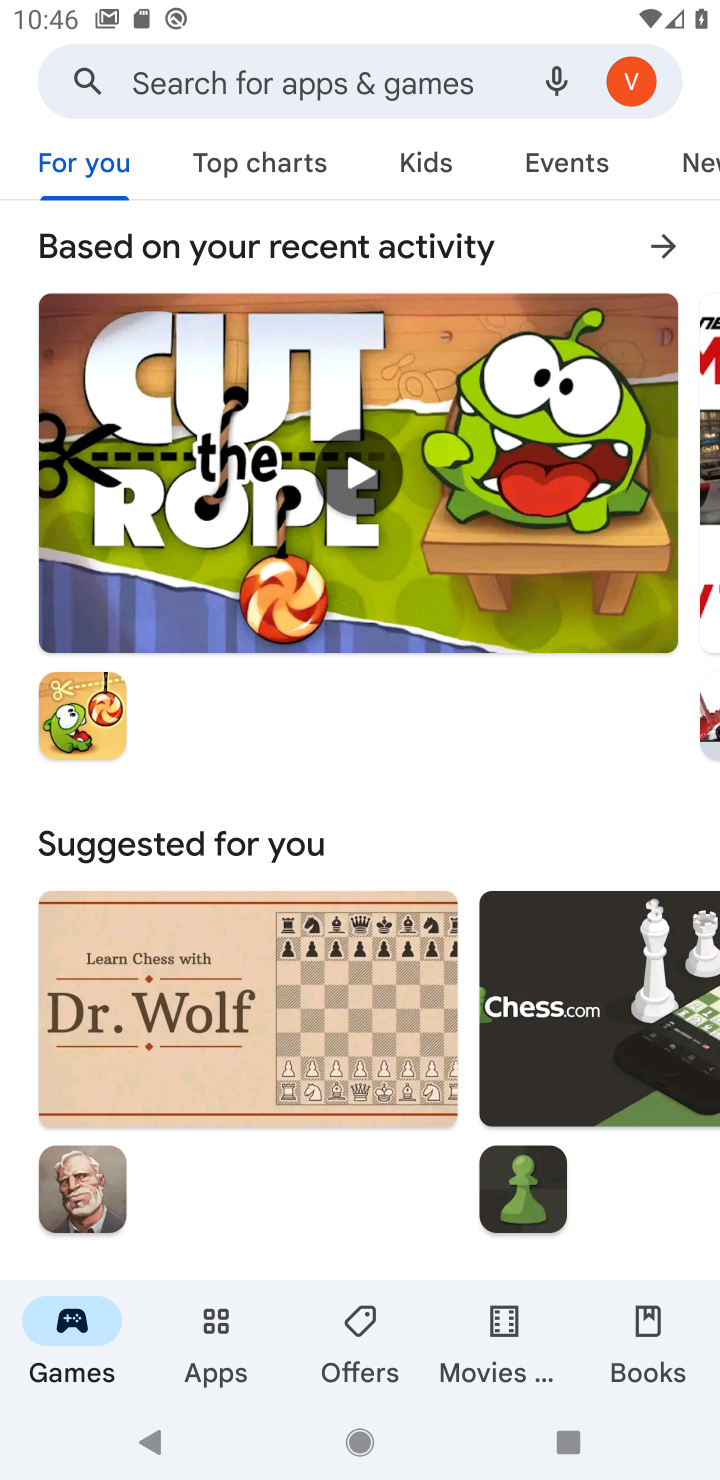
Step 32: click (175, 63)
Your task to perform on an android device: install app "Pluto TV - Live TV and Movies" Image 33: 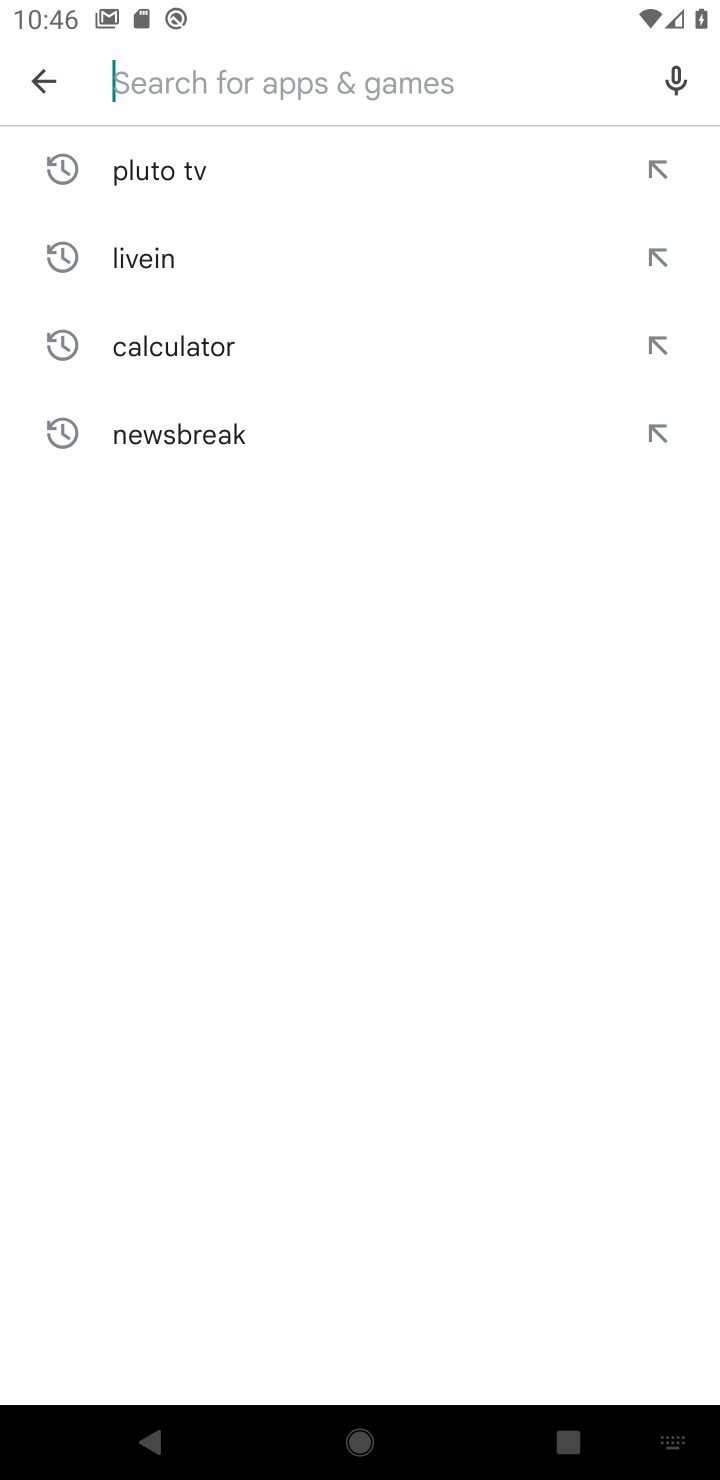
Step 33: click (118, 180)
Your task to perform on an android device: install app "Pluto TV - Live TV and Movies" Image 34: 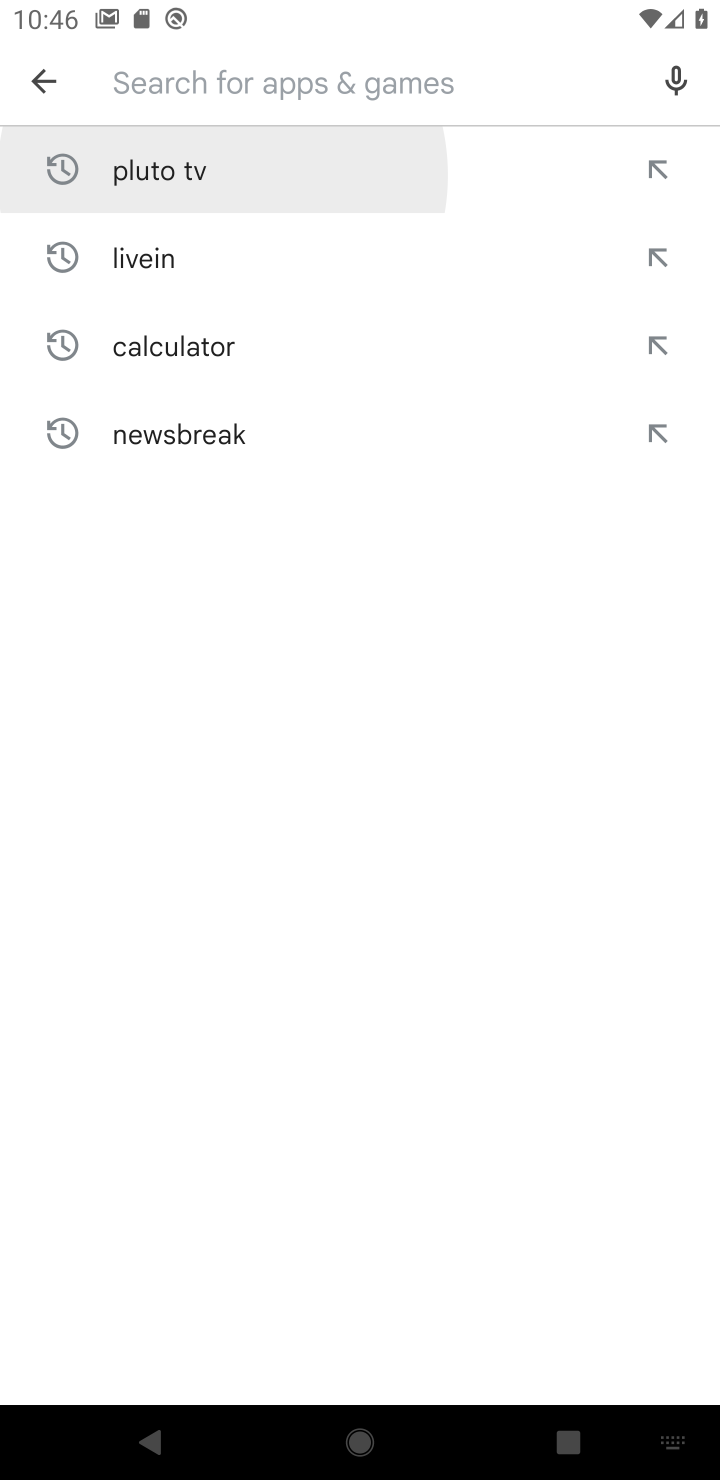
Step 34: click (124, 180)
Your task to perform on an android device: install app "Pluto TV - Live TV and Movies" Image 35: 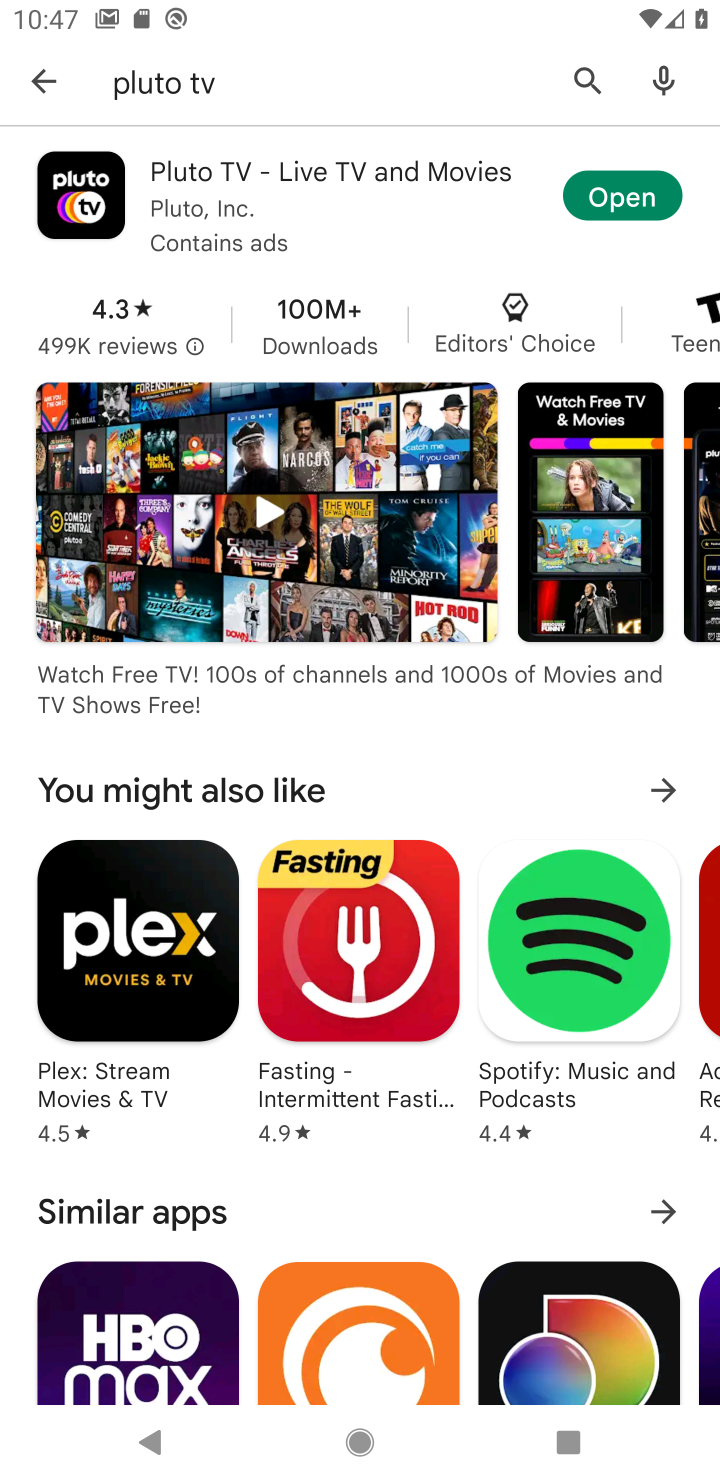
Step 35: click (634, 217)
Your task to perform on an android device: install app "Pluto TV - Live TV and Movies" Image 36: 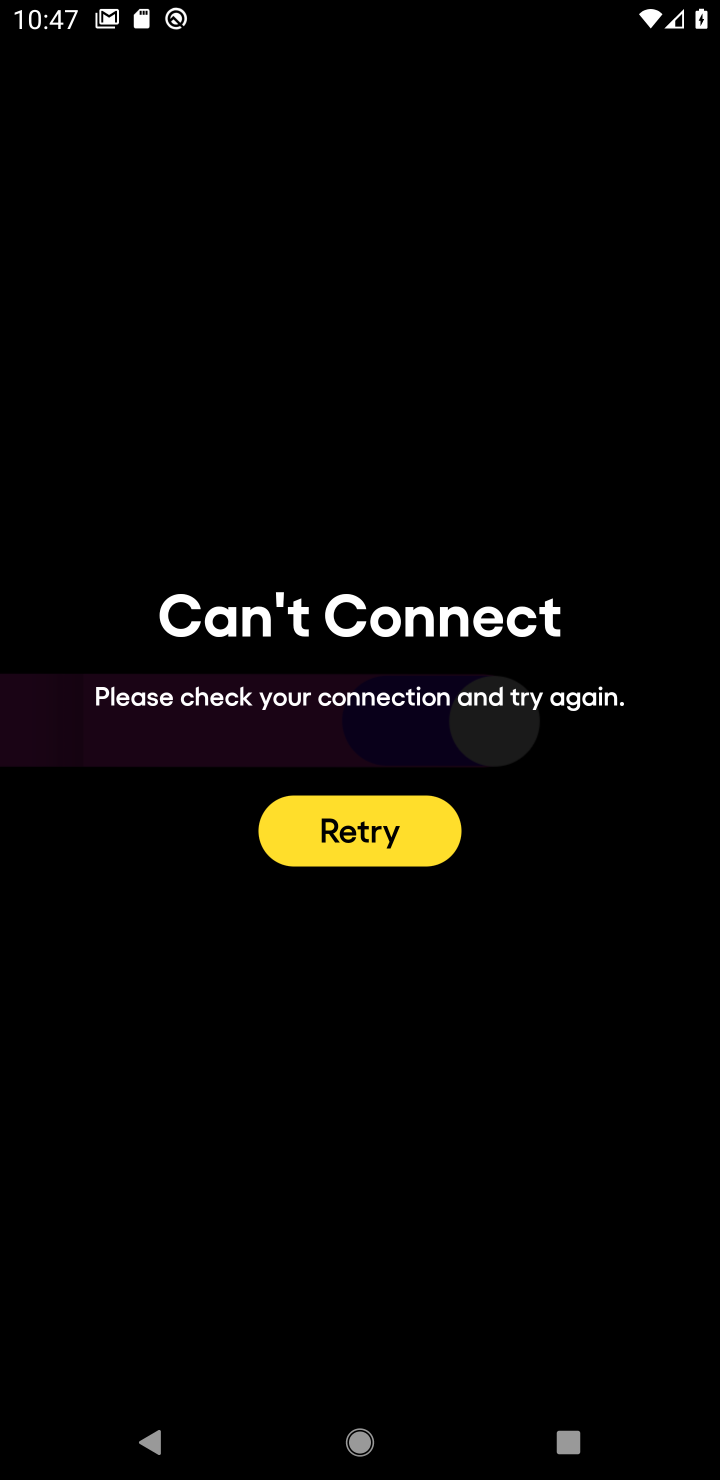
Step 36: task complete